Your task to perform on an android device: install app "Google Play Games" Image 0: 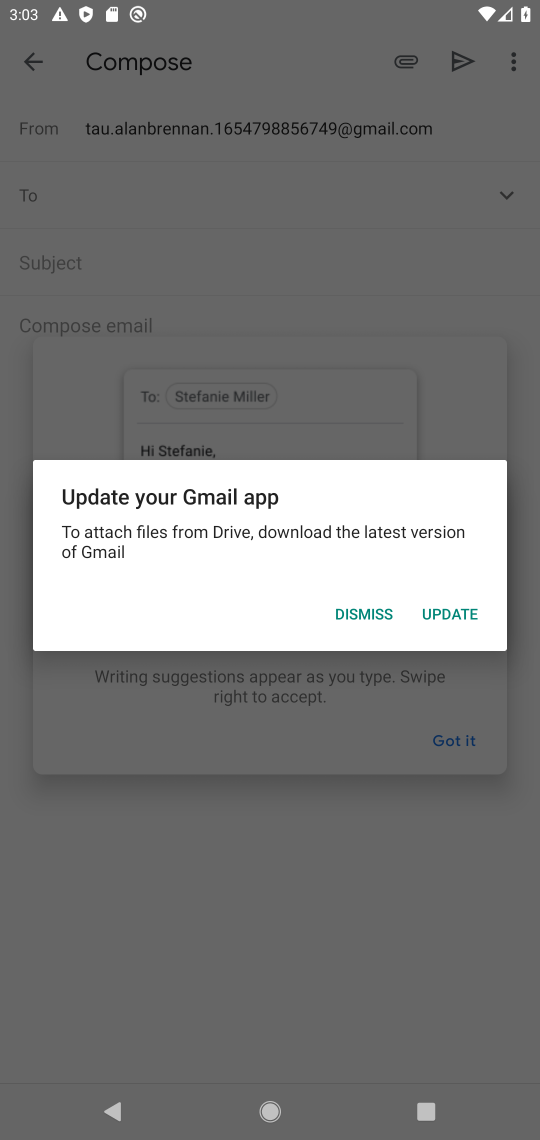
Step 0: click (354, 620)
Your task to perform on an android device: install app "Google Play Games" Image 1: 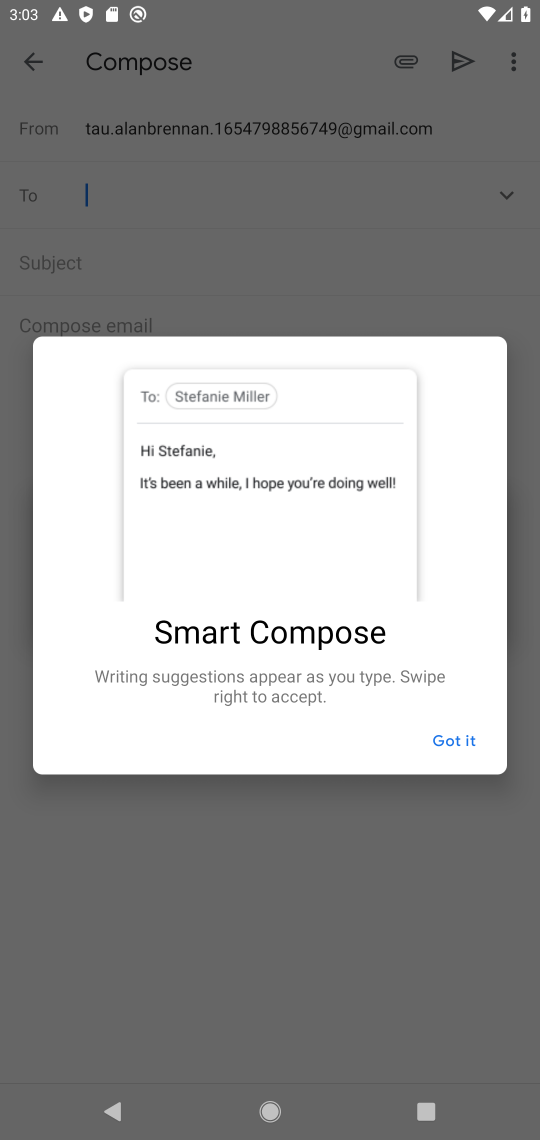
Step 1: click (450, 731)
Your task to perform on an android device: install app "Google Play Games" Image 2: 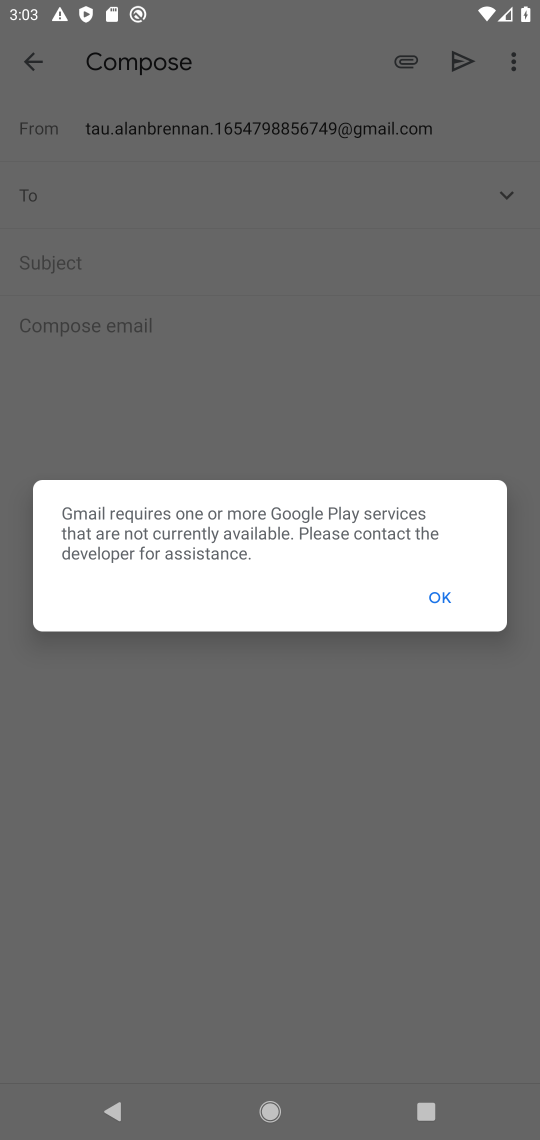
Step 2: click (430, 603)
Your task to perform on an android device: install app "Google Play Games" Image 3: 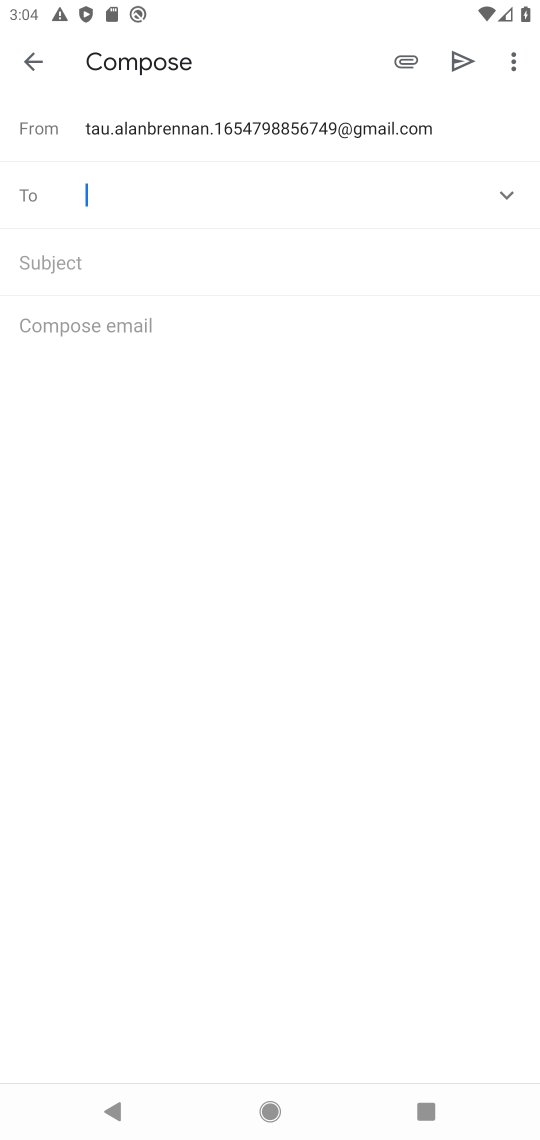
Step 3: click (18, 57)
Your task to perform on an android device: install app "Google Play Games" Image 4: 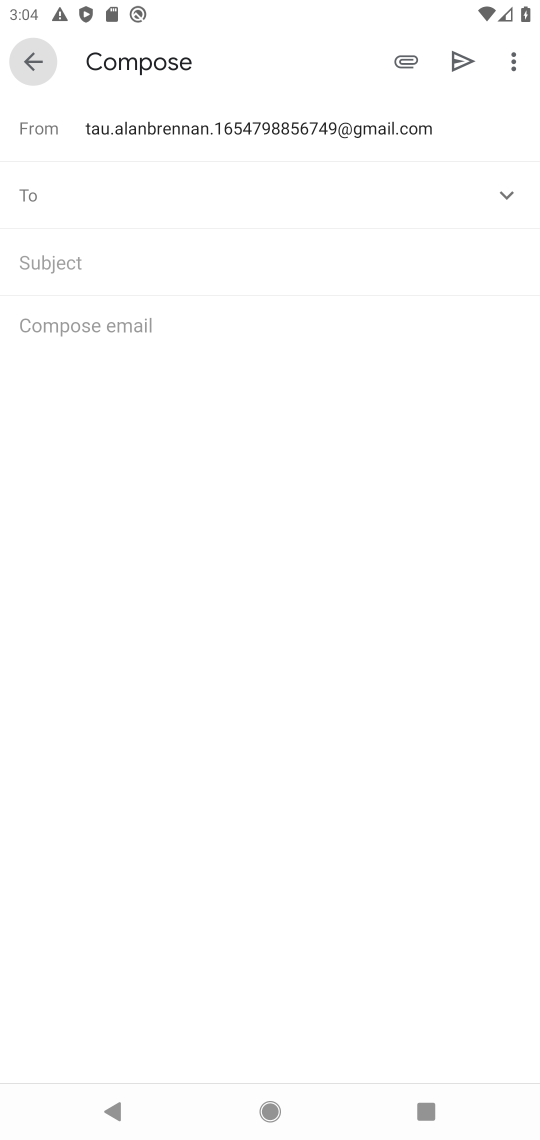
Step 4: click (39, 61)
Your task to perform on an android device: install app "Google Play Games" Image 5: 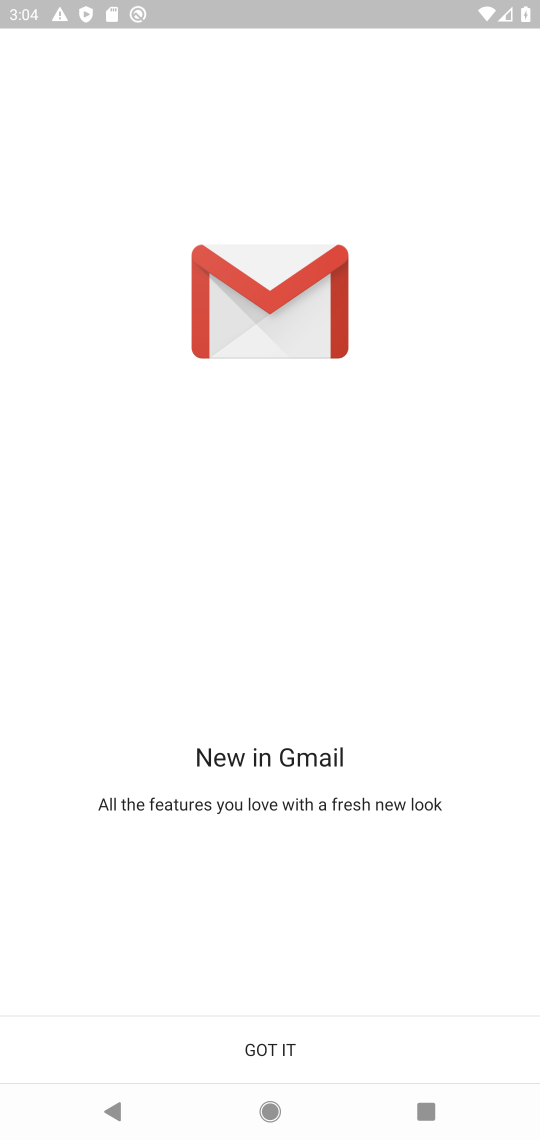
Step 5: click (276, 1039)
Your task to perform on an android device: install app "Google Play Games" Image 6: 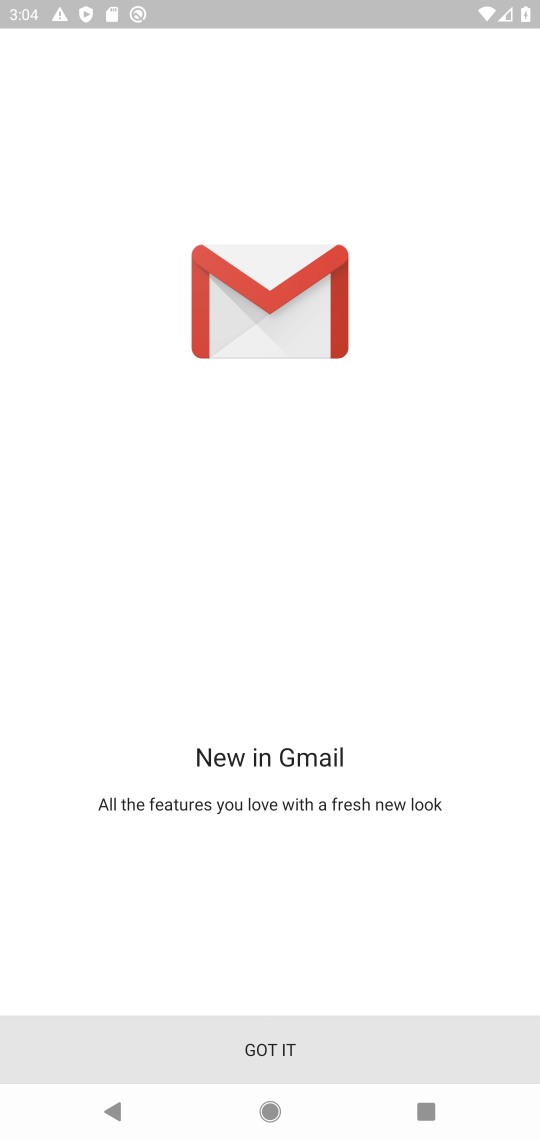
Step 6: click (269, 1036)
Your task to perform on an android device: install app "Google Play Games" Image 7: 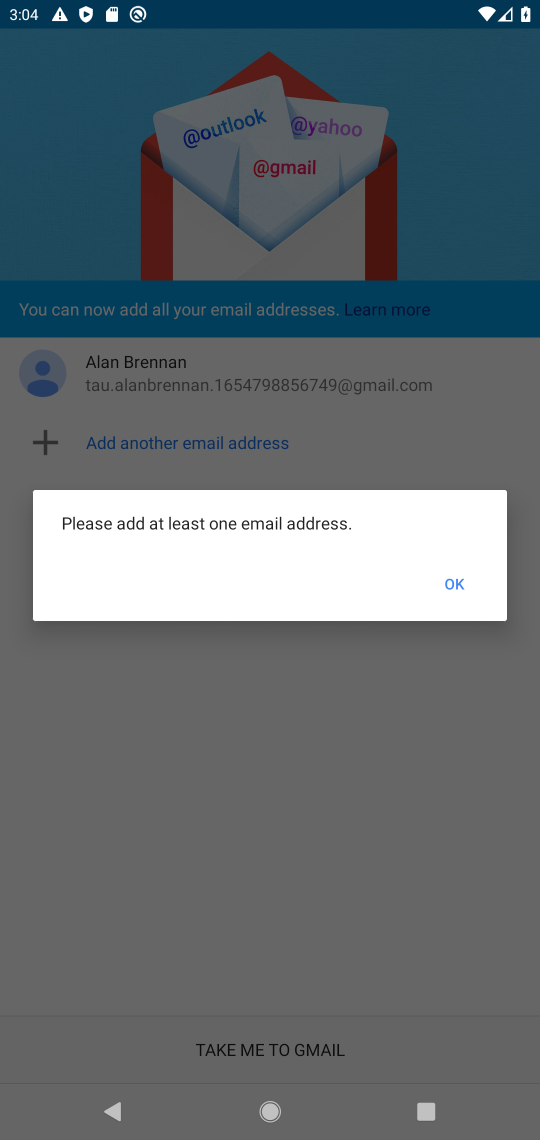
Step 7: click (452, 586)
Your task to perform on an android device: install app "Google Play Games" Image 8: 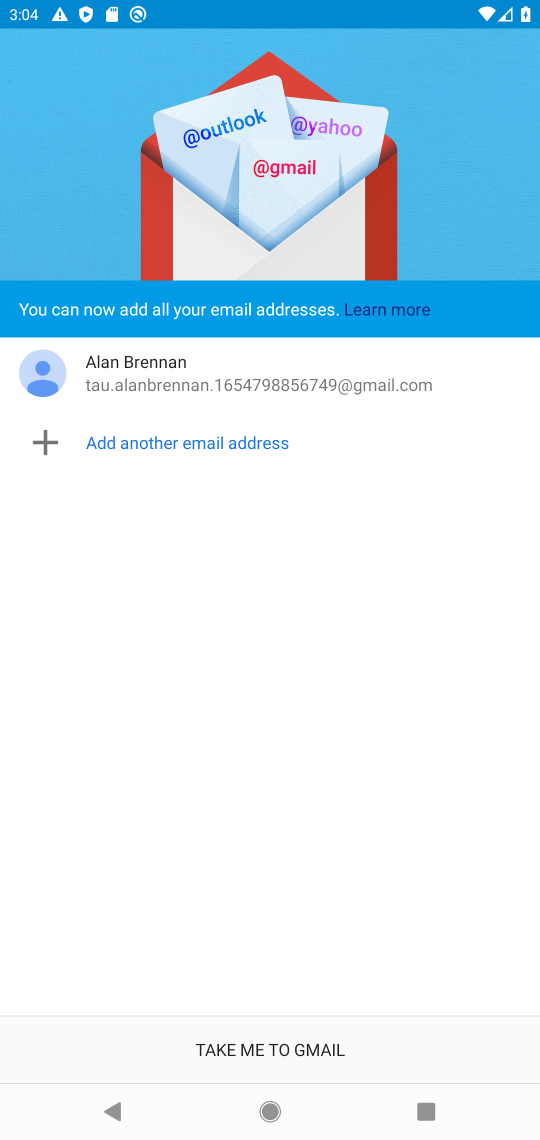
Step 8: click (238, 1052)
Your task to perform on an android device: install app "Google Play Games" Image 9: 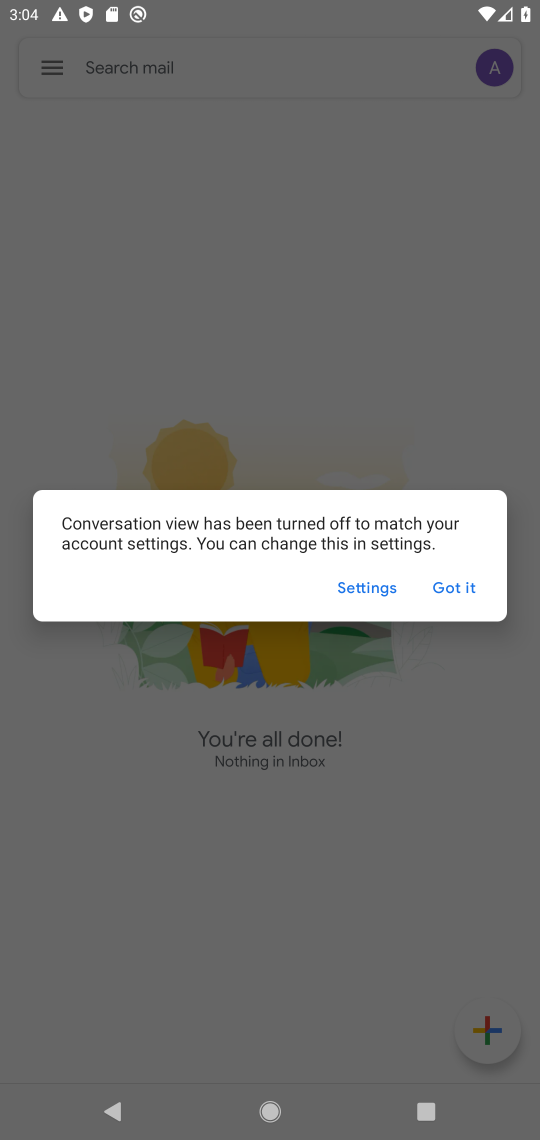
Step 9: click (449, 580)
Your task to perform on an android device: install app "Google Play Games" Image 10: 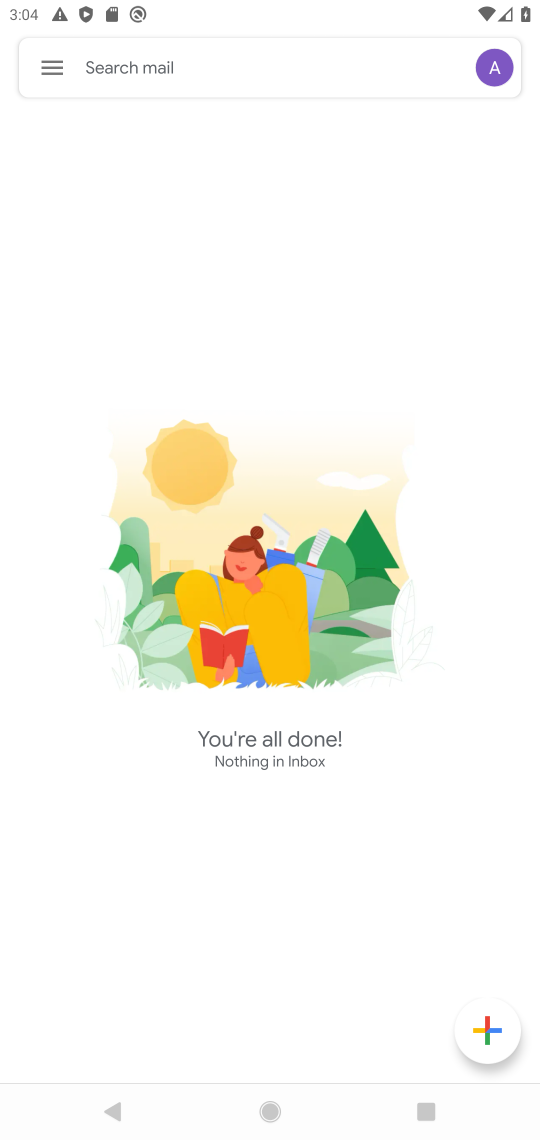
Step 10: click (453, 578)
Your task to perform on an android device: install app "Google Play Games" Image 11: 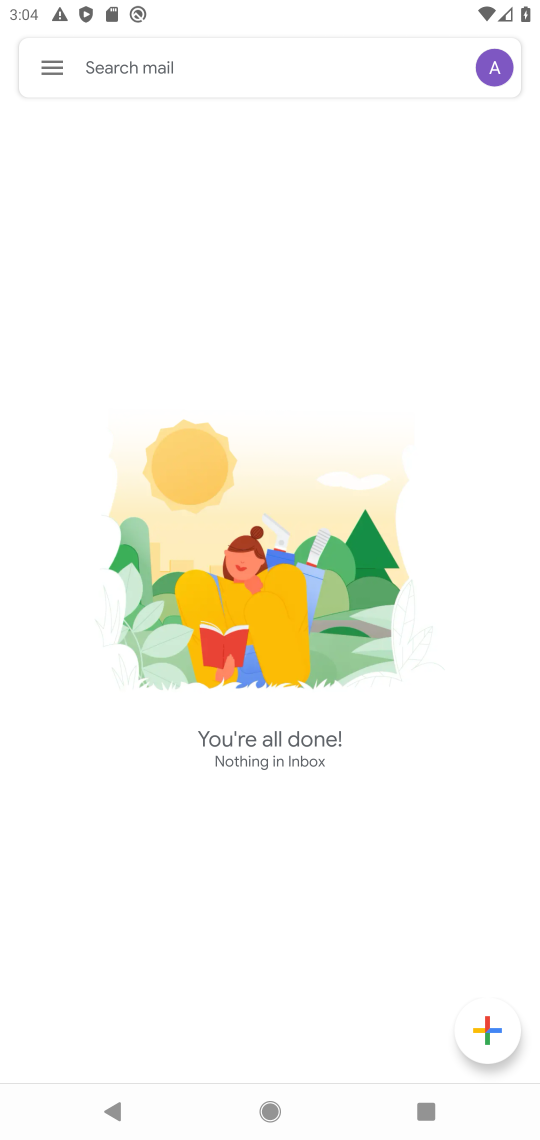
Step 11: press back button
Your task to perform on an android device: install app "Google Play Games" Image 12: 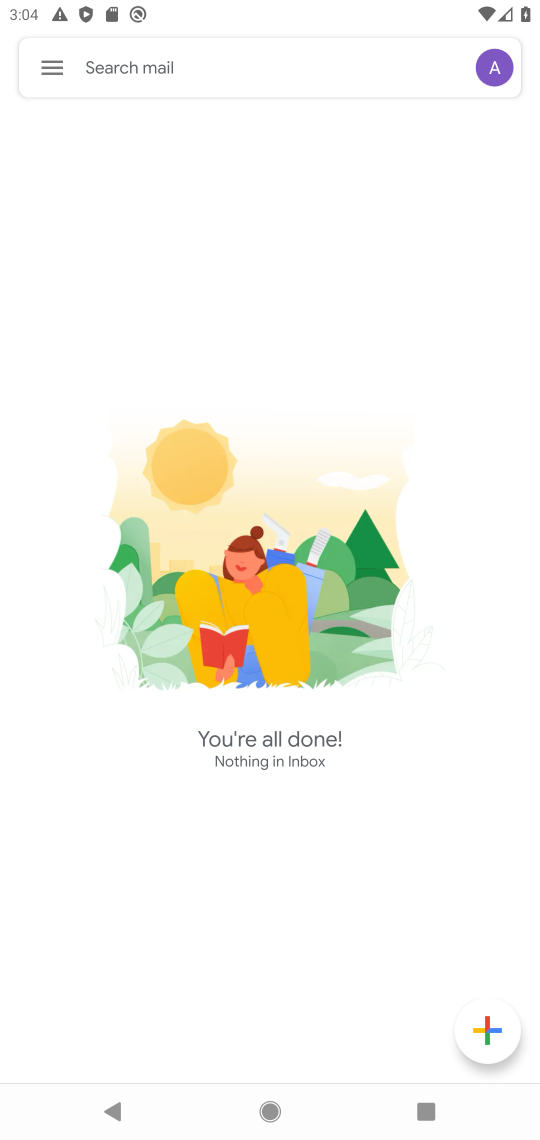
Step 12: press back button
Your task to perform on an android device: install app "Google Play Games" Image 13: 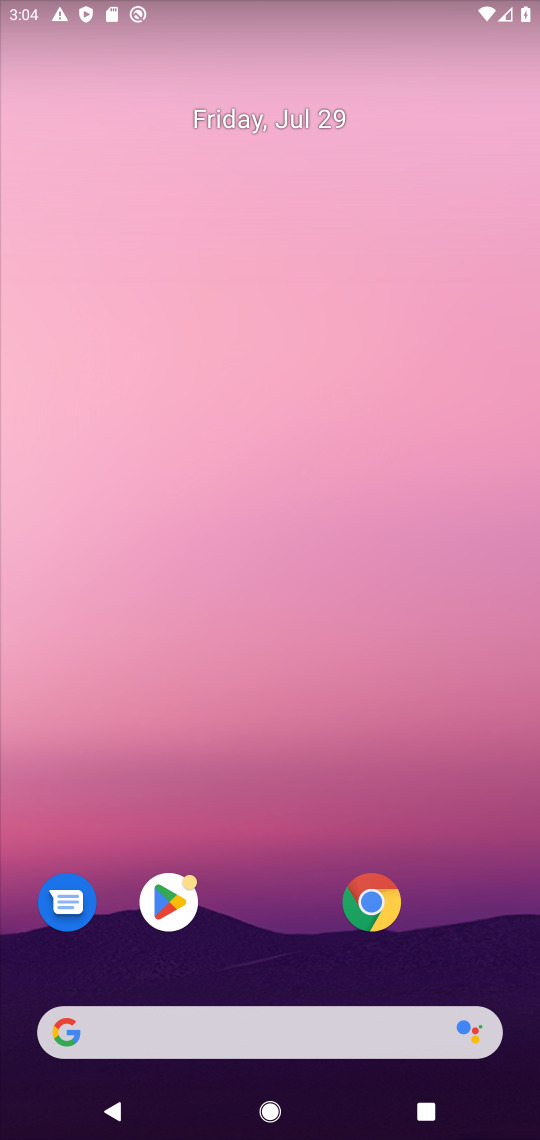
Step 13: press back button
Your task to perform on an android device: install app "Google Play Games" Image 14: 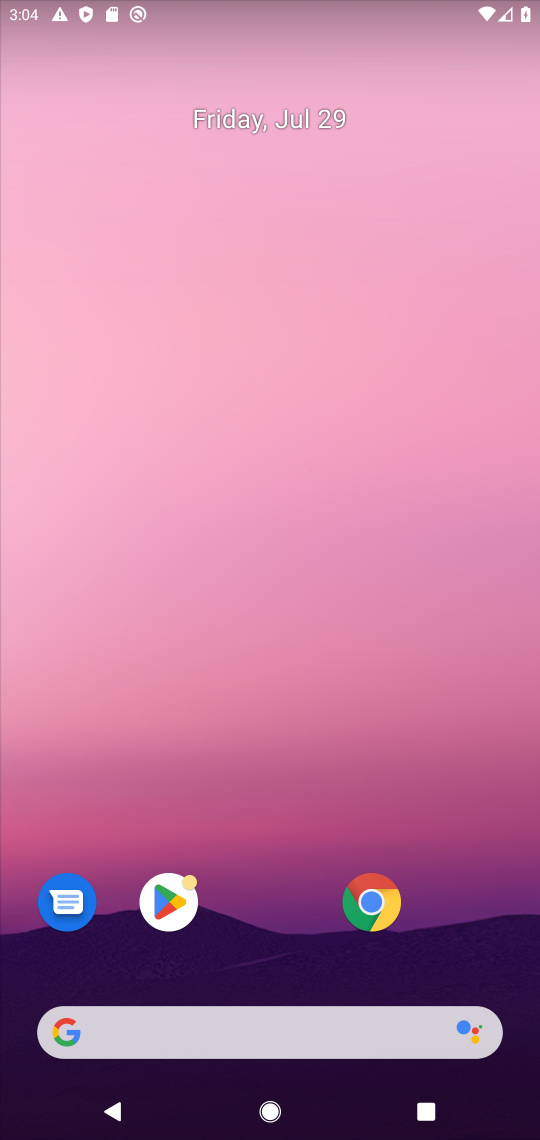
Step 14: drag from (343, 966) to (270, 557)
Your task to perform on an android device: install app "Google Play Games" Image 15: 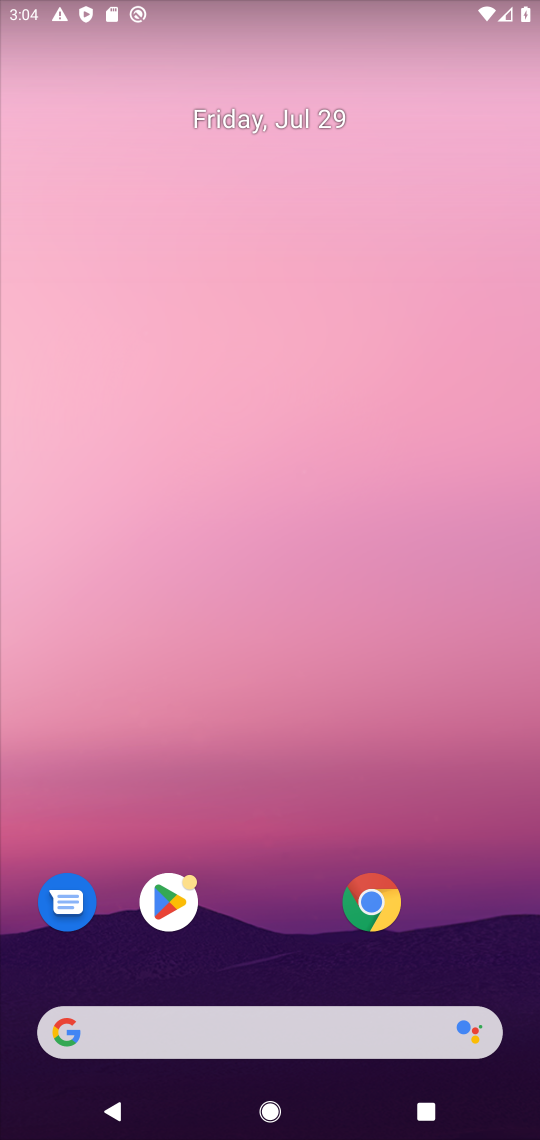
Step 15: drag from (336, 1113) to (275, 603)
Your task to perform on an android device: install app "Google Play Games" Image 16: 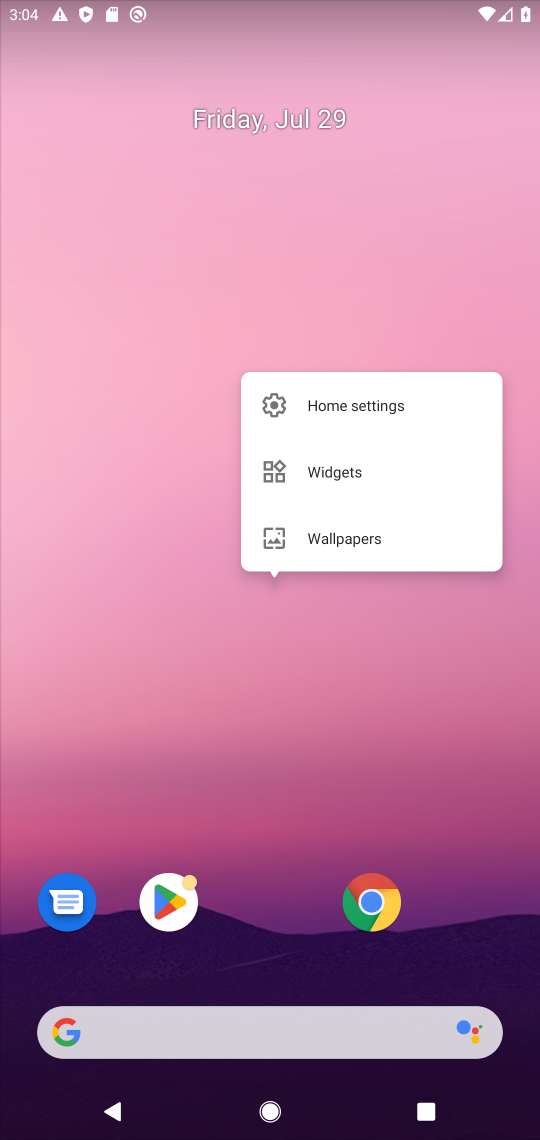
Step 16: drag from (250, 772) to (130, 102)
Your task to perform on an android device: install app "Google Play Games" Image 17: 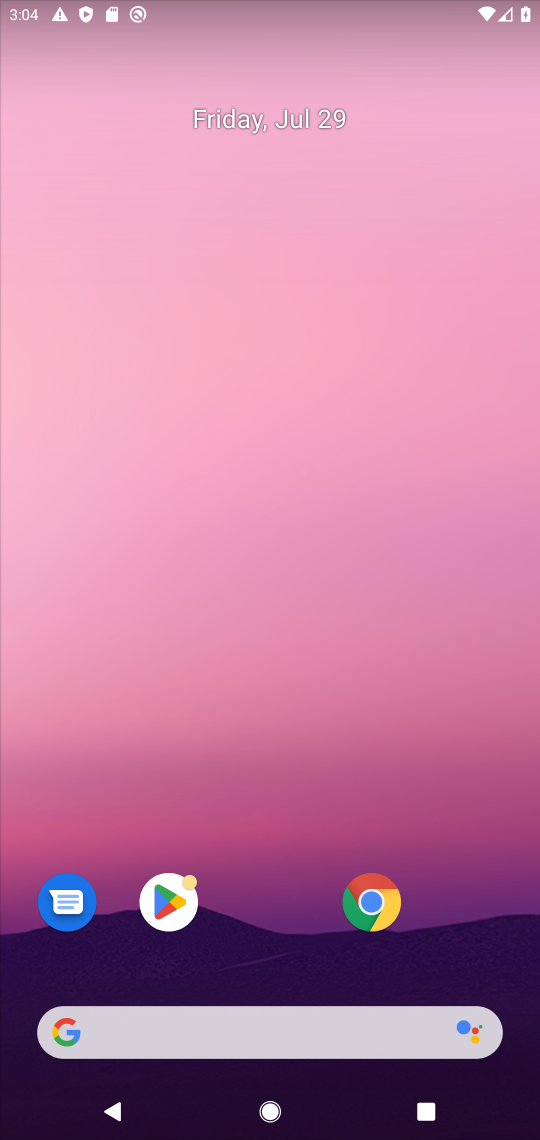
Step 17: drag from (202, 363) to (152, 15)
Your task to perform on an android device: install app "Google Play Games" Image 18: 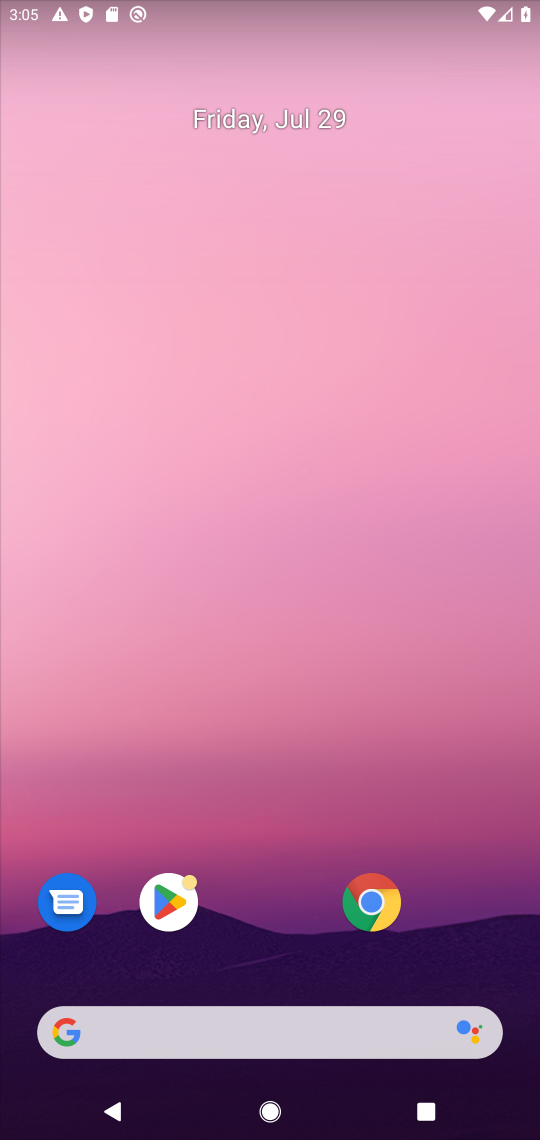
Step 18: drag from (273, 407) to (216, 171)
Your task to perform on an android device: install app "Google Play Games" Image 19: 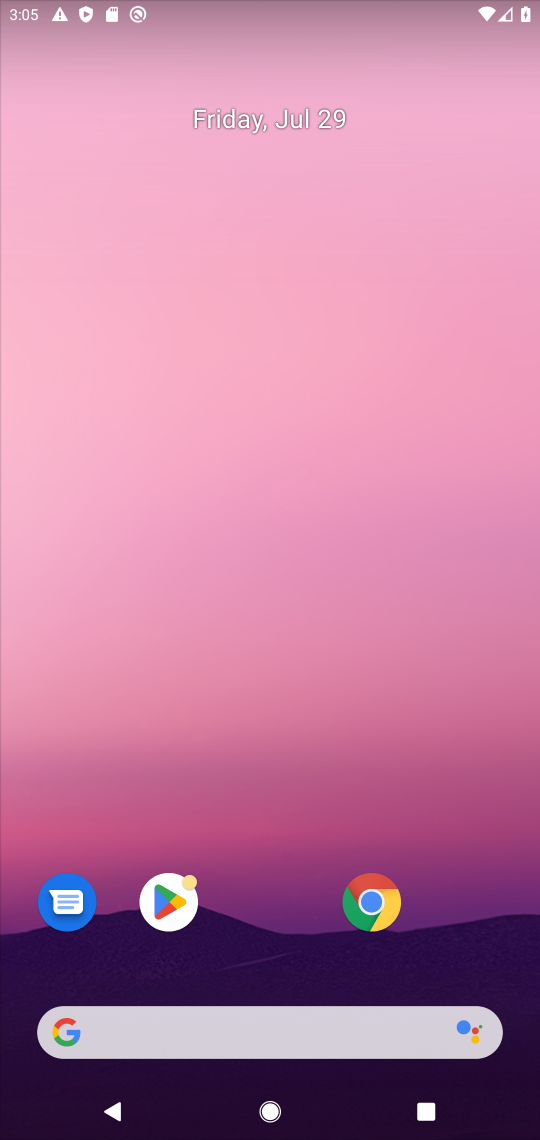
Step 19: drag from (185, 335) to (155, 210)
Your task to perform on an android device: install app "Google Play Games" Image 20: 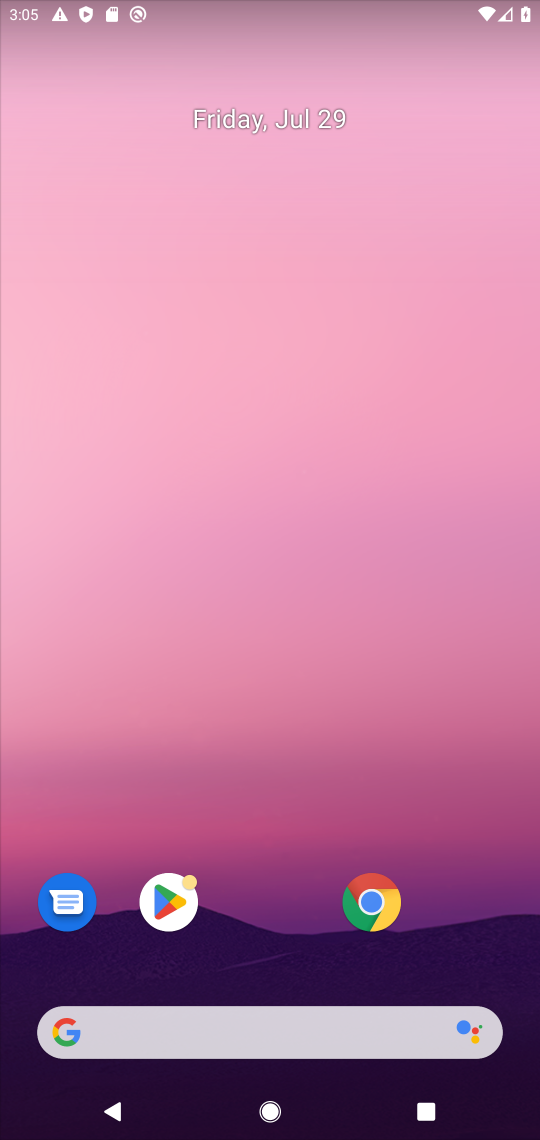
Step 20: drag from (272, 611) to (212, 206)
Your task to perform on an android device: install app "Google Play Games" Image 21: 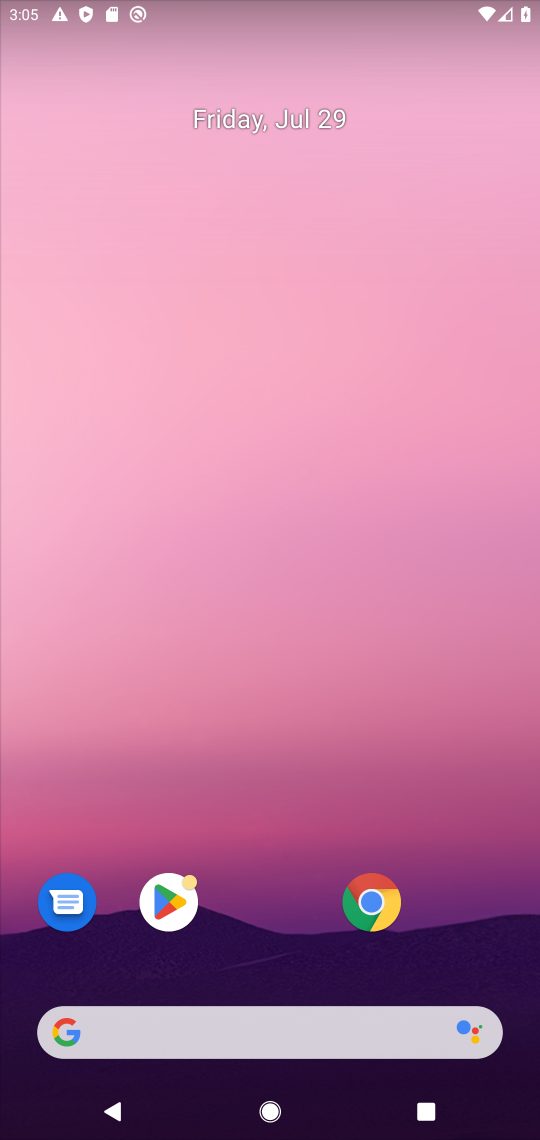
Step 21: drag from (215, 506) to (206, 445)
Your task to perform on an android device: install app "Google Play Games" Image 22: 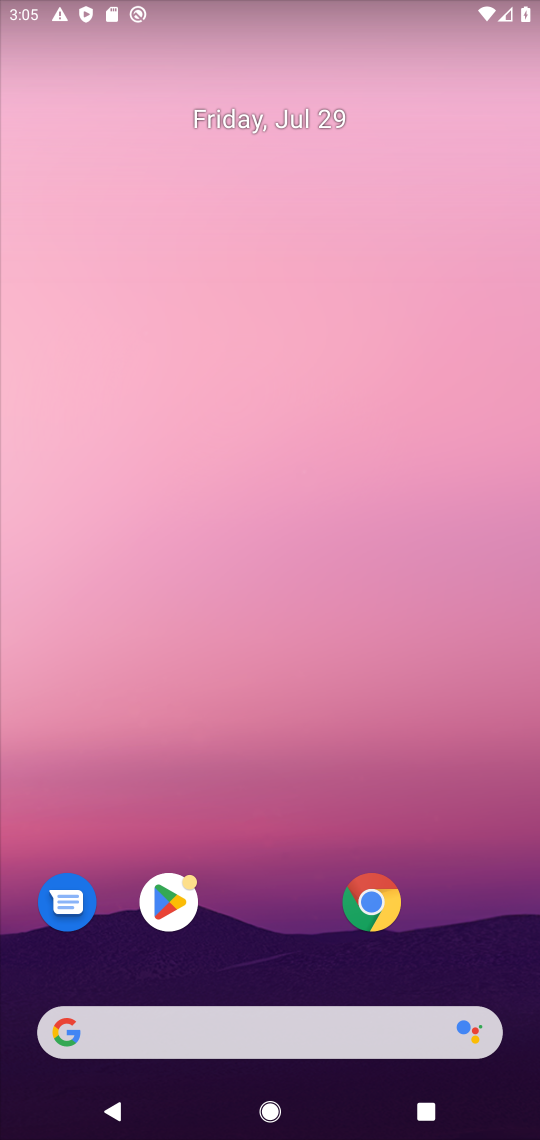
Step 22: drag from (304, 186) to (295, 91)
Your task to perform on an android device: install app "Google Play Games" Image 23: 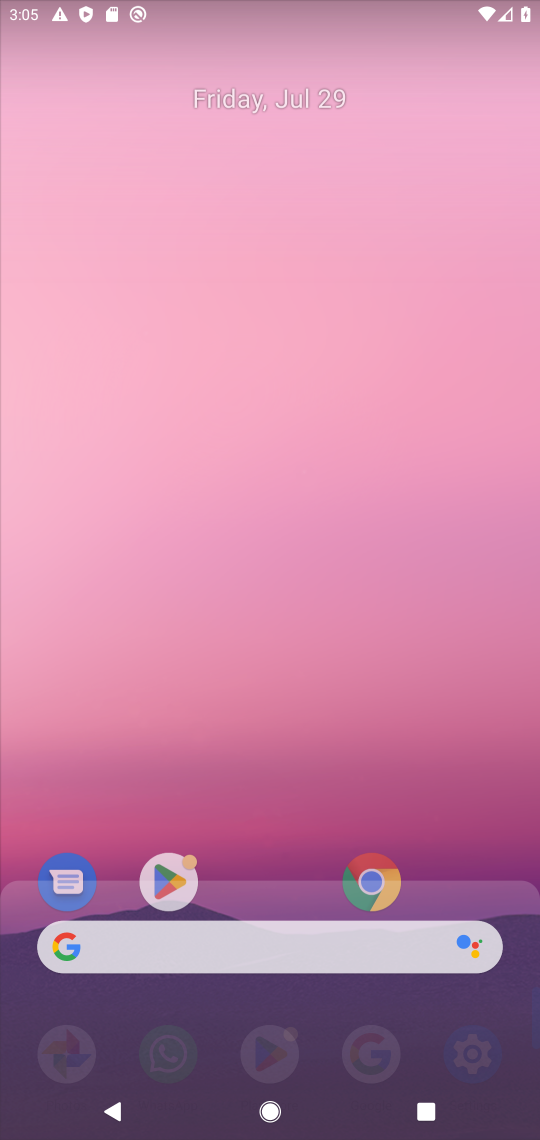
Step 23: drag from (242, 14) to (163, 26)
Your task to perform on an android device: install app "Google Play Games" Image 24: 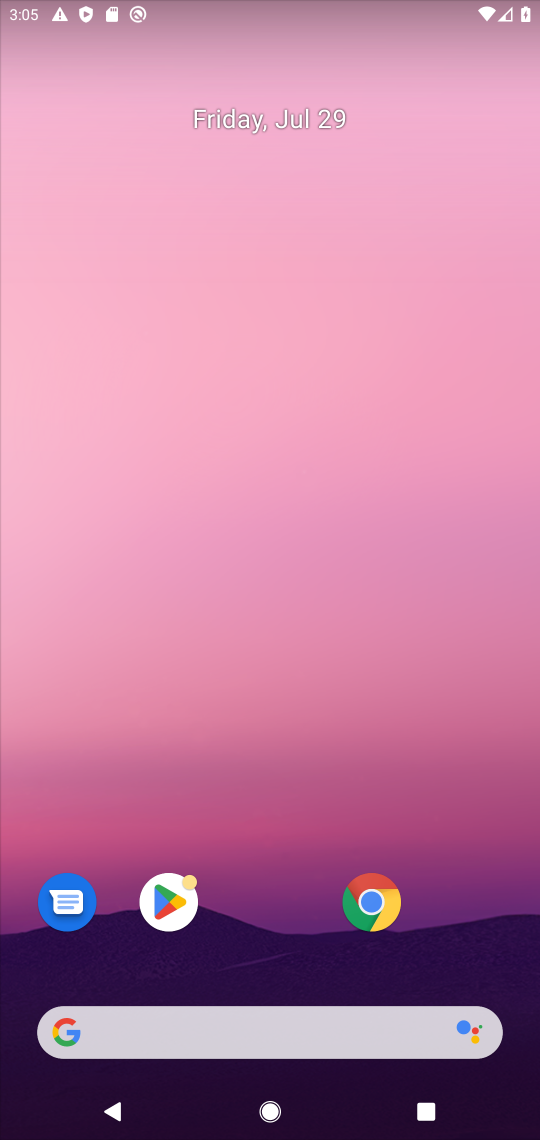
Step 24: drag from (259, 688) to (107, 189)
Your task to perform on an android device: install app "Google Play Games" Image 25: 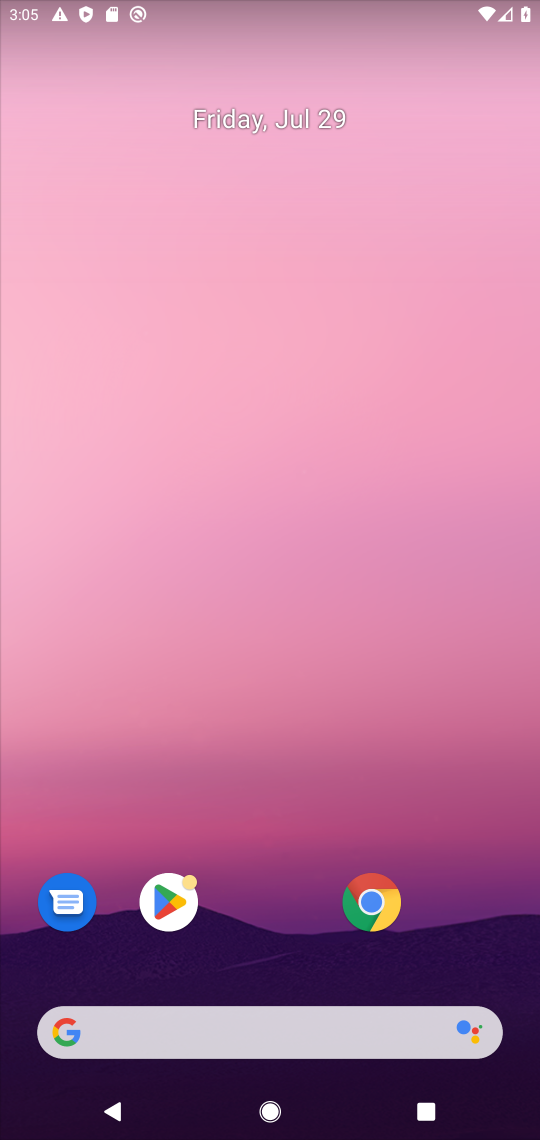
Step 25: drag from (332, 913) to (237, 260)
Your task to perform on an android device: install app "Google Play Games" Image 26: 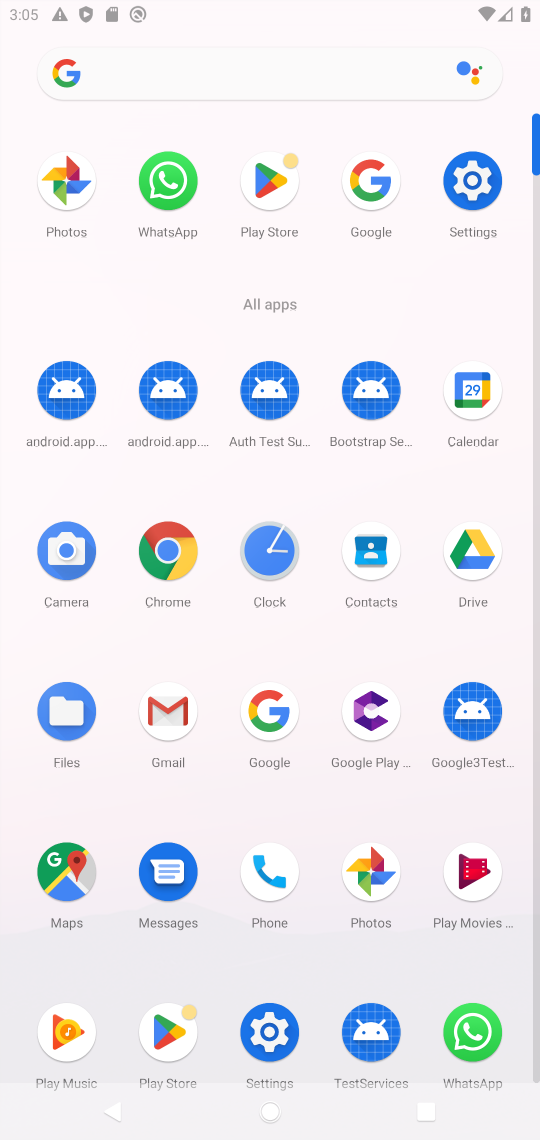
Step 26: drag from (192, 266) to (254, 38)
Your task to perform on an android device: install app "Google Play Games" Image 27: 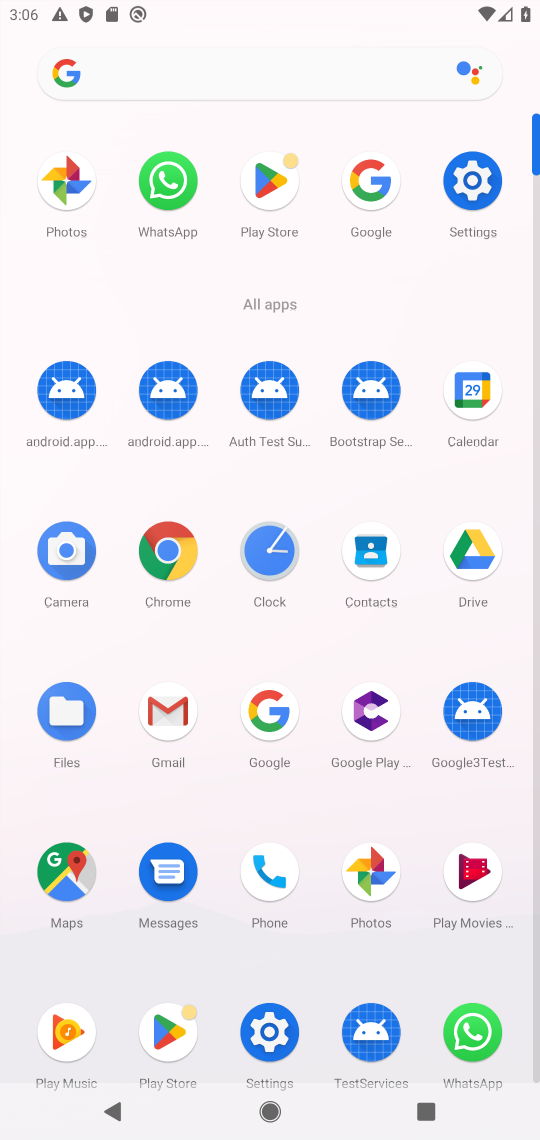
Step 27: click (268, 189)
Your task to perform on an android device: install app "Google Play Games" Image 28: 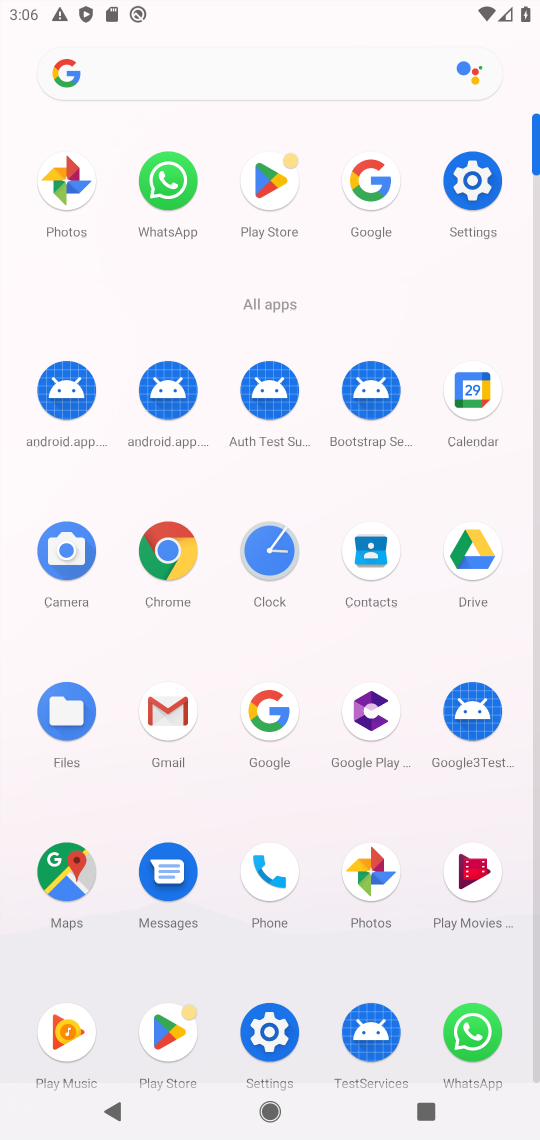
Step 28: click (268, 188)
Your task to perform on an android device: install app "Google Play Games" Image 29: 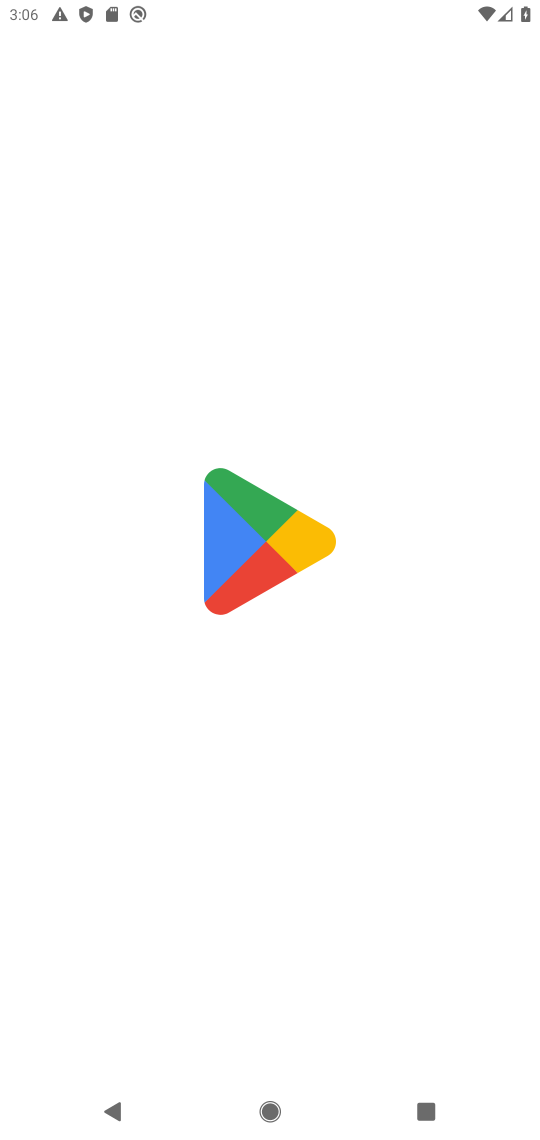
Step 29: click (270, 193)
Your task to perform on an android device: install app "Google Play Games" Image 30: 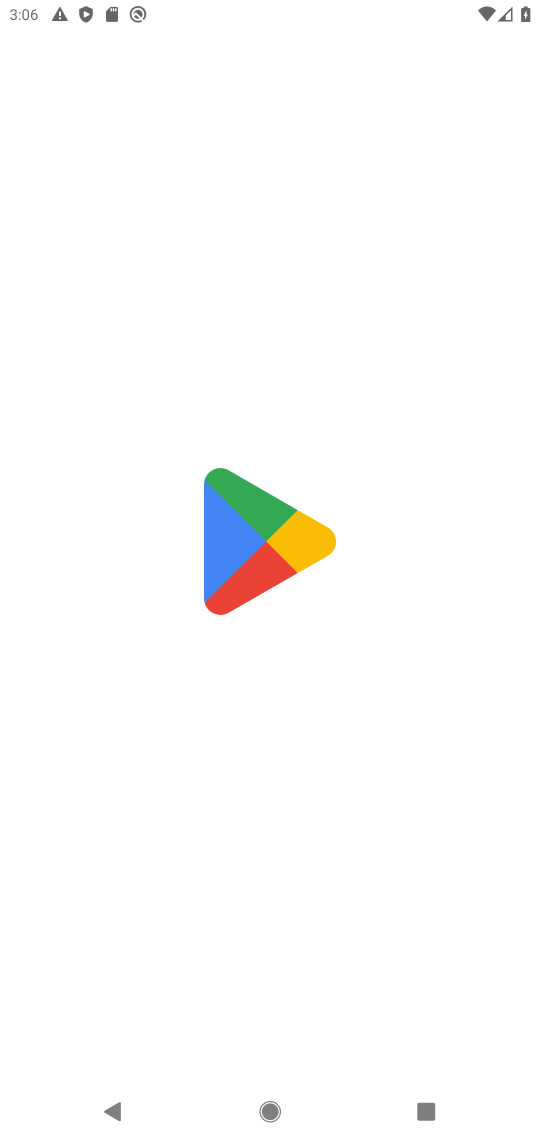
Step 30: click (263, 186)
Your task to perform on an android device: install app "Google Play Games" Image 31: 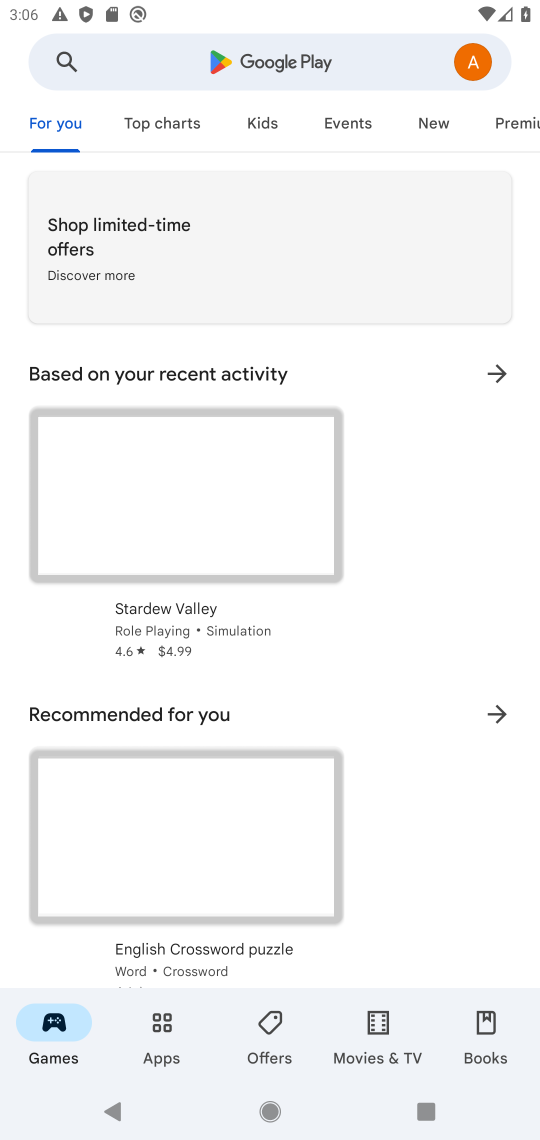
Step 31: click (260, 55)
Your task to perform on an android device: install app "Google Play Games" Image 32: 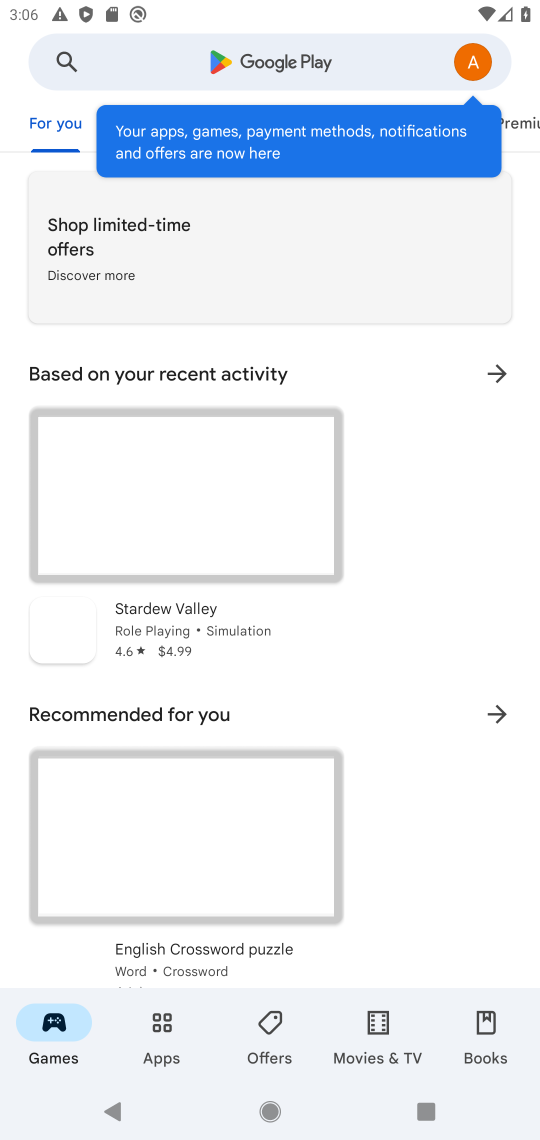
Step 32: click (256, 49)
Your task to perform on an android device: install app "Google Play Games" Image 33: 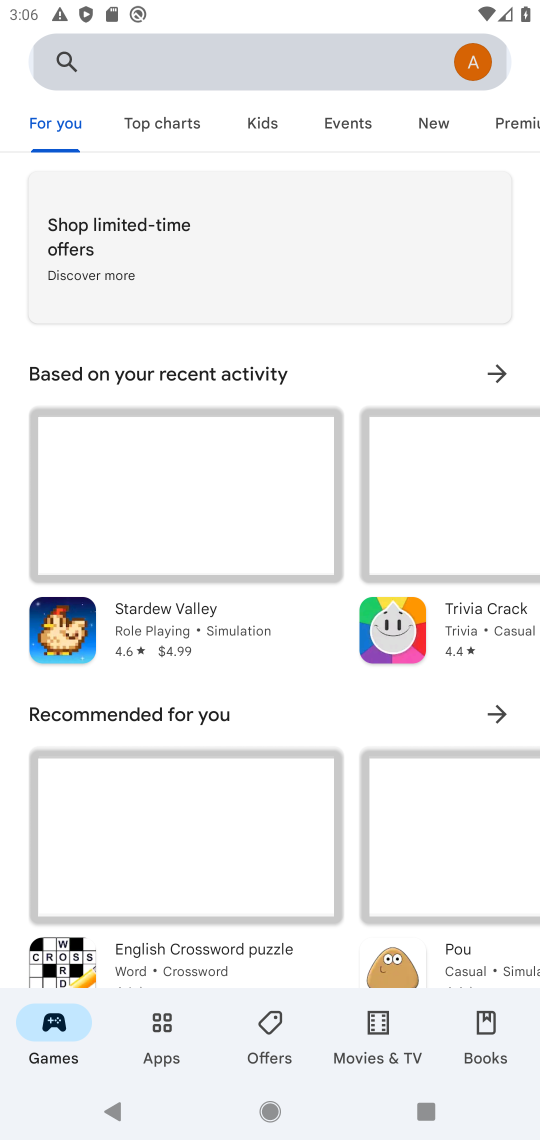
Step 33: click (252, 73)
Your task to perform on an android device: install app "Google Play Games" Image 34: 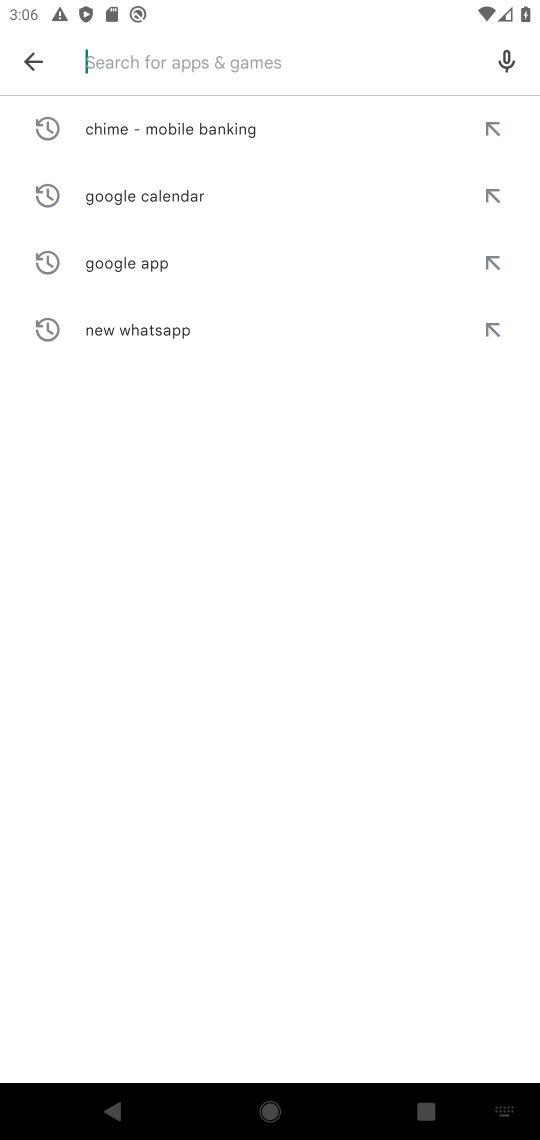
Step 34: click (228, 54)
Your task to perform on an android device: install app "Google Play Games" Image 35: 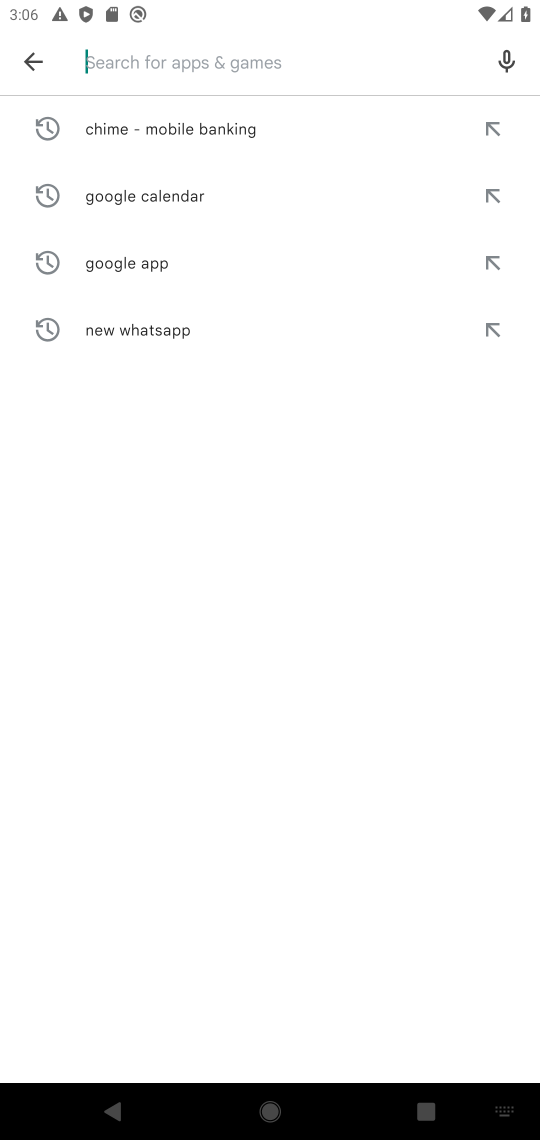
Step 35: click (209, 61)
Your task to perform on an android device: install app "Google Play Games" Image 36: 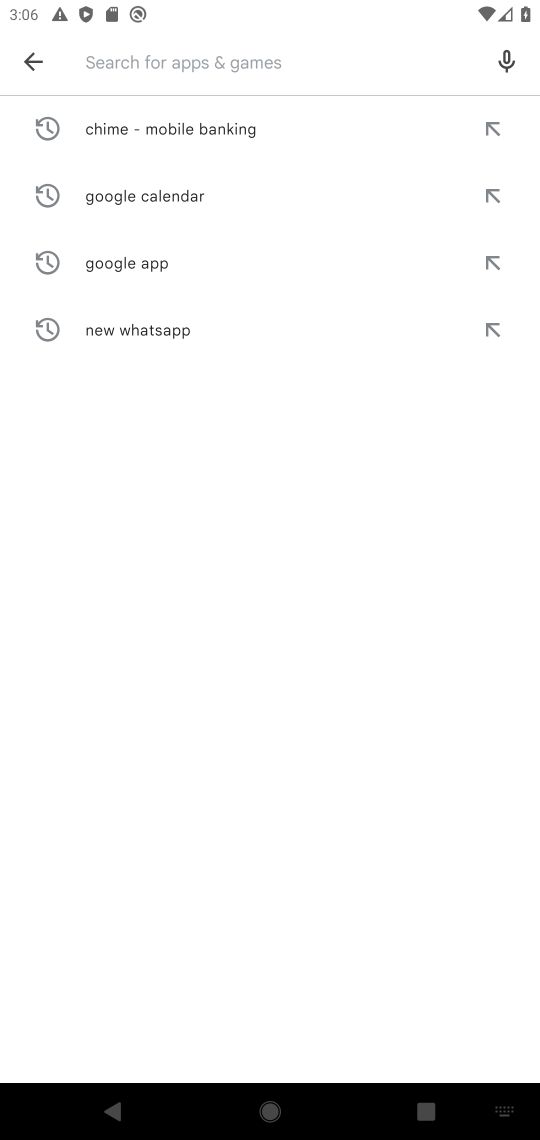
Step 36: click (206, 62)
Your task to perform on an android device: install app "Google Play Games" Image 37: 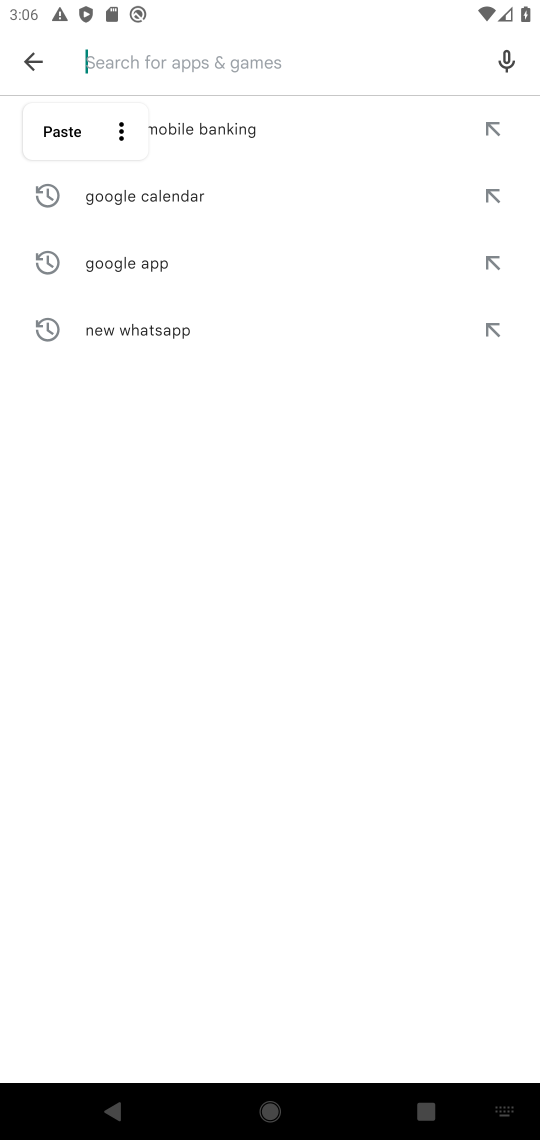
Step 37: type "Google Play Games"
Your task to perform on an android device: install app "Google Play Games" Image 38: 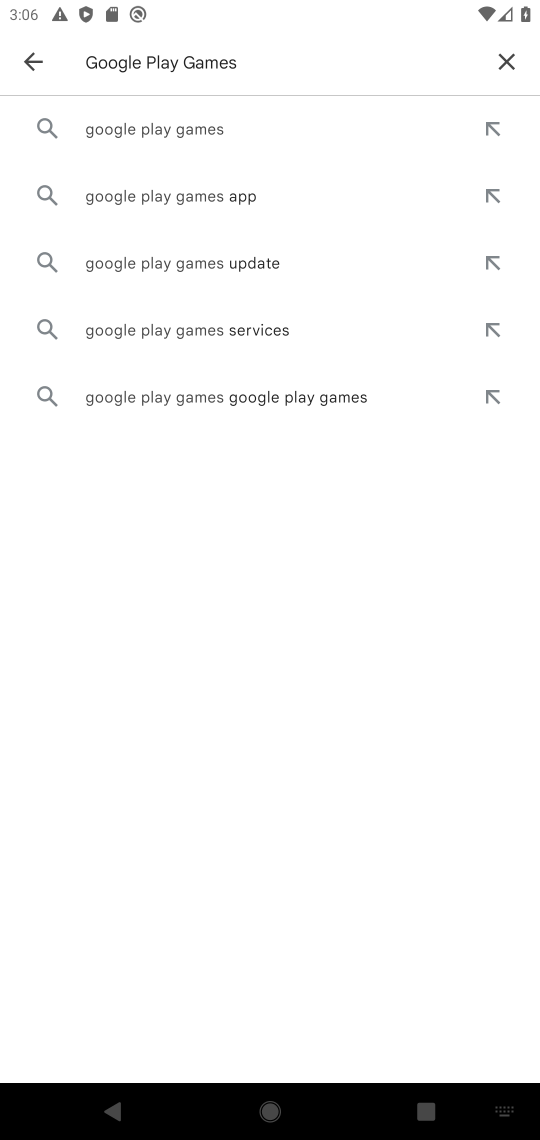
Step 38: click (174, 124)
Your task to perform on an android device: install app "Google Play Games" Image 39: 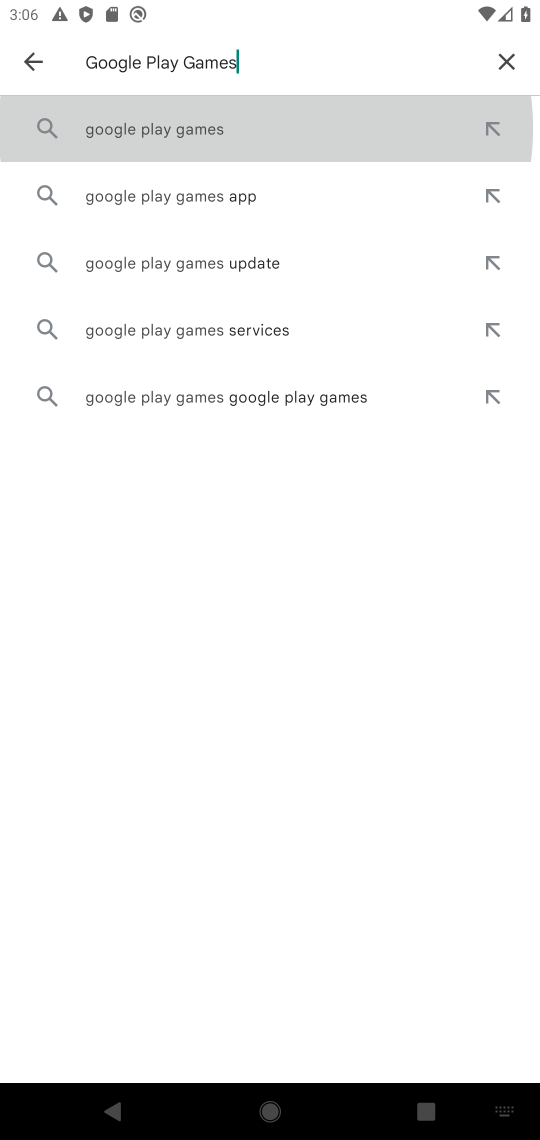
Step 39: click (173, 126)
Your task to perform on an android device: install app "Google Play Games" Image 40: 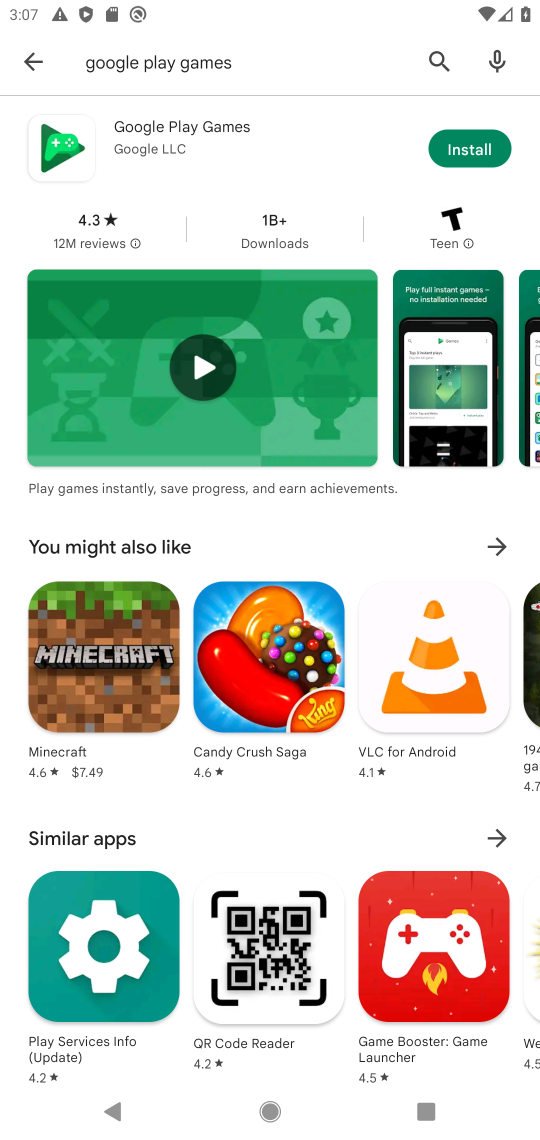
Step 40: click (458, 143)
Your task to perform on an android device: install app "Google Play Games" Image 41: 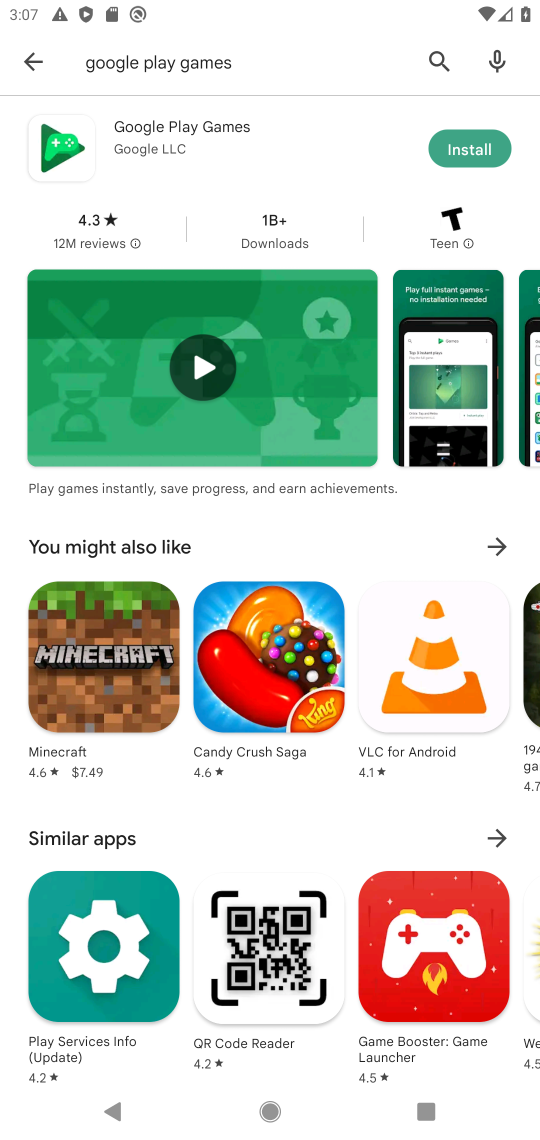
Step 41: click (458, 130)
Your task to perform on an android device: install app "Google Play Games" Image 42: 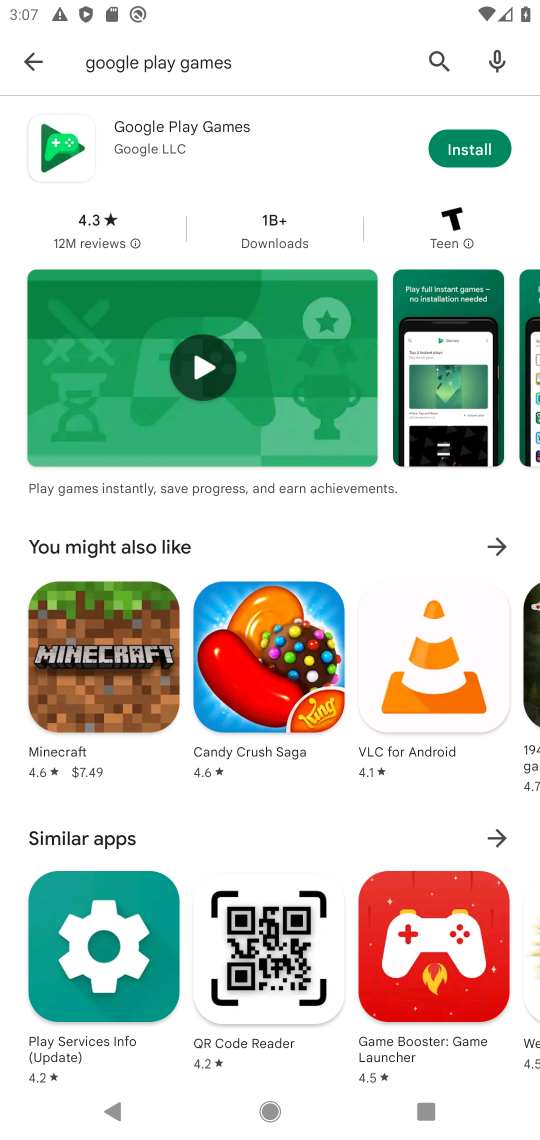
Step 42: click (462, 145)
Your task to perform on an android device: install app "Google Play Games" Image 43: 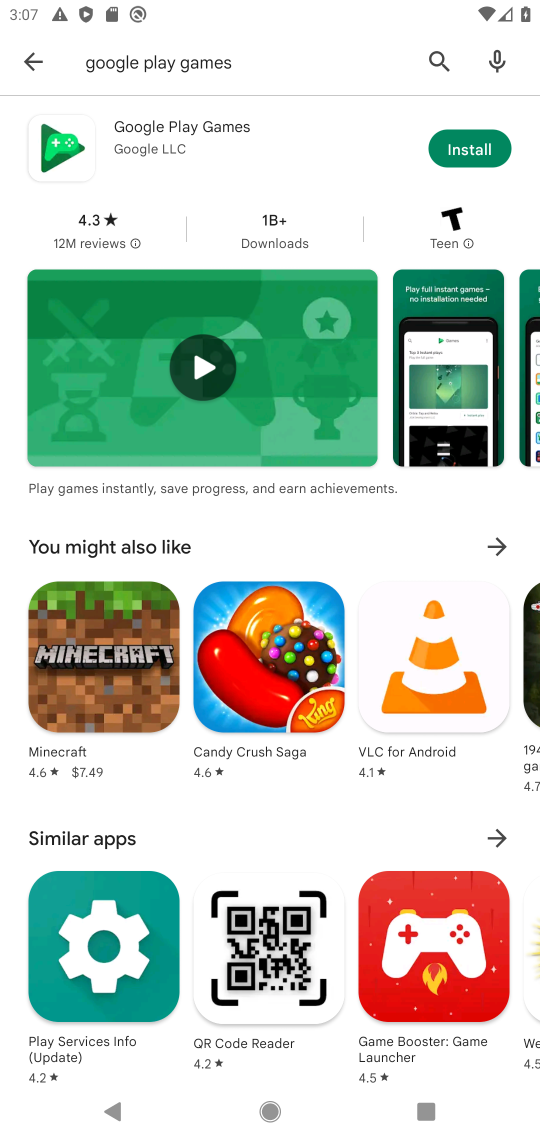
Step 43: click (459, 145)
Your task to perform on an android device: install app "Google Play Games" Image 44: 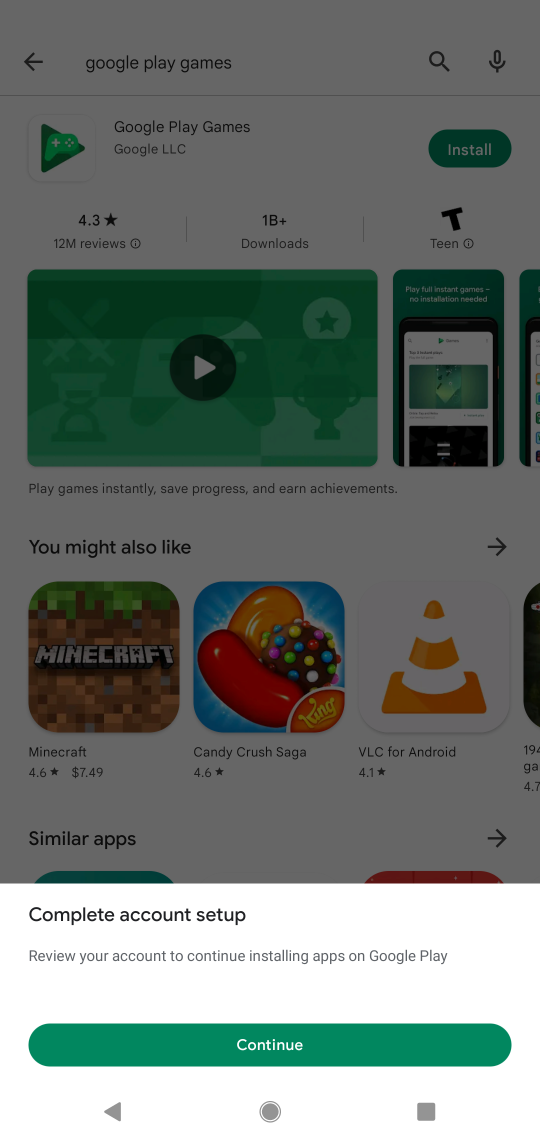
Step 44: click (266, 1032)
Your task to perform on an android device: install app "Google Play Games" Image 45: 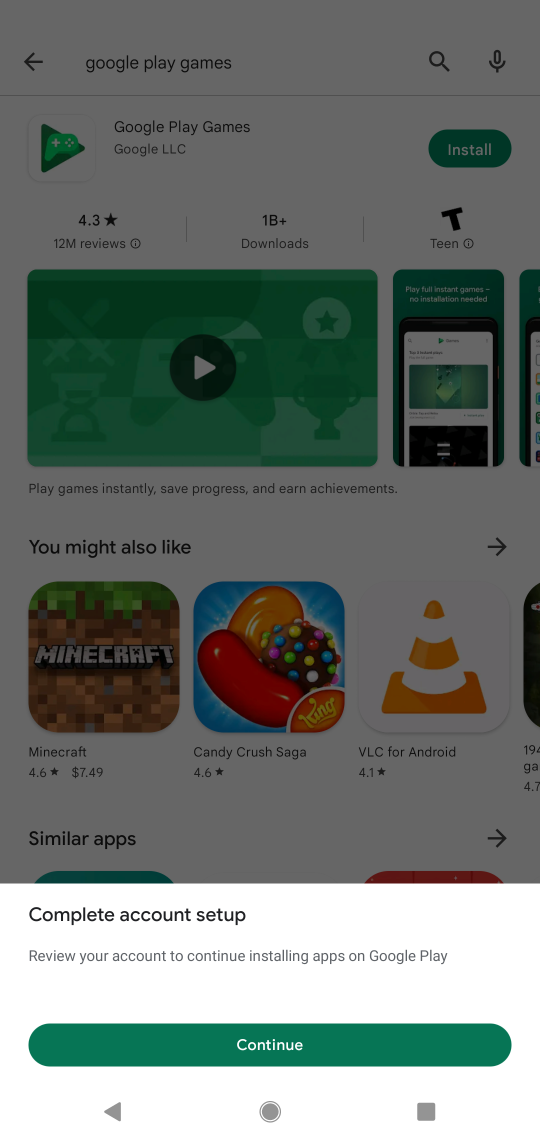
Step 45: click (289, 1021)
Your task to perform on an android device: install app "Google Play Games" Image 46: 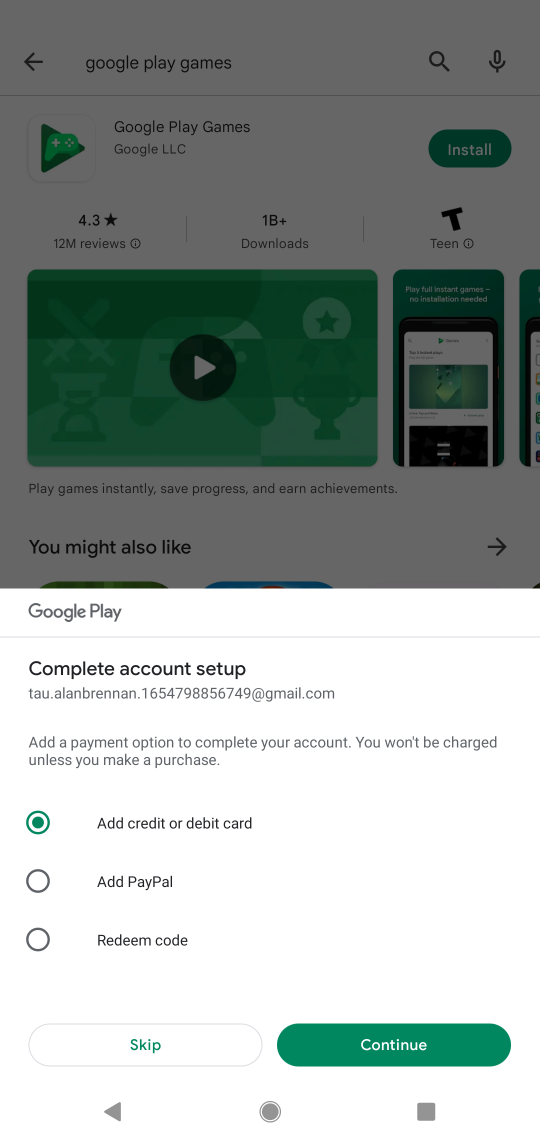
Step 46: click (150, 1045)
Your task to perform on an android device: install app "Google Play Games" Image 47: 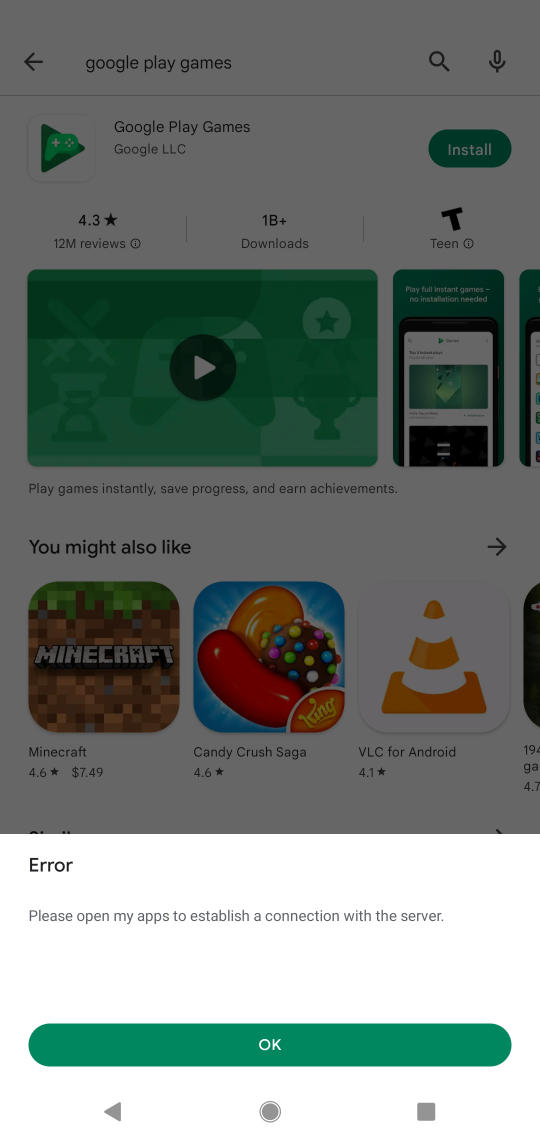
Step 47: click (280, 1045)
Your task to perform on an android device: install app "Google Play Games" Image 48: 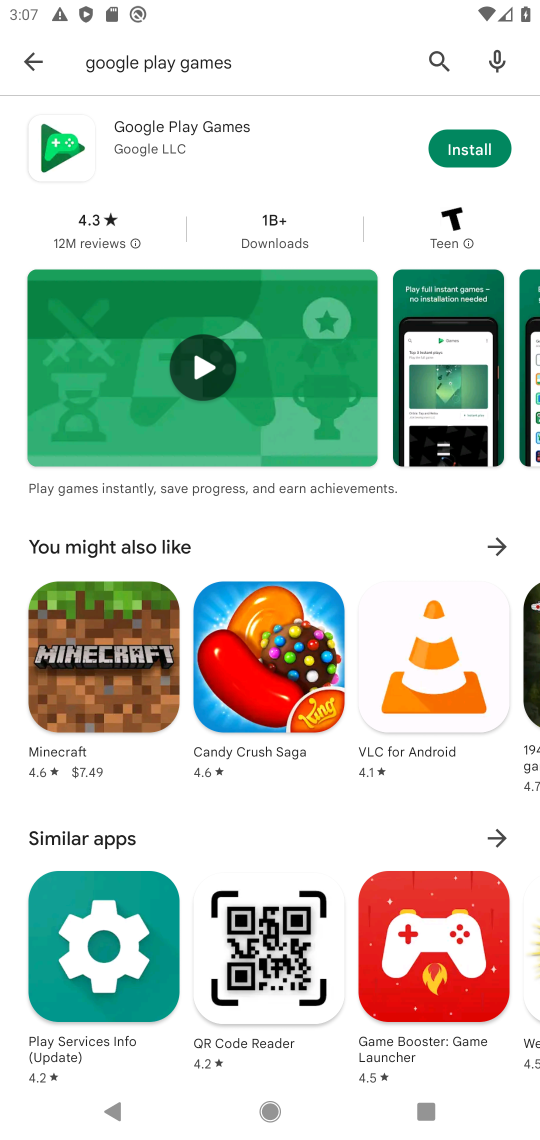
Step 48: click (472, 154)
Your task to perform on an android device: install app "Google Play Games" Image 49: 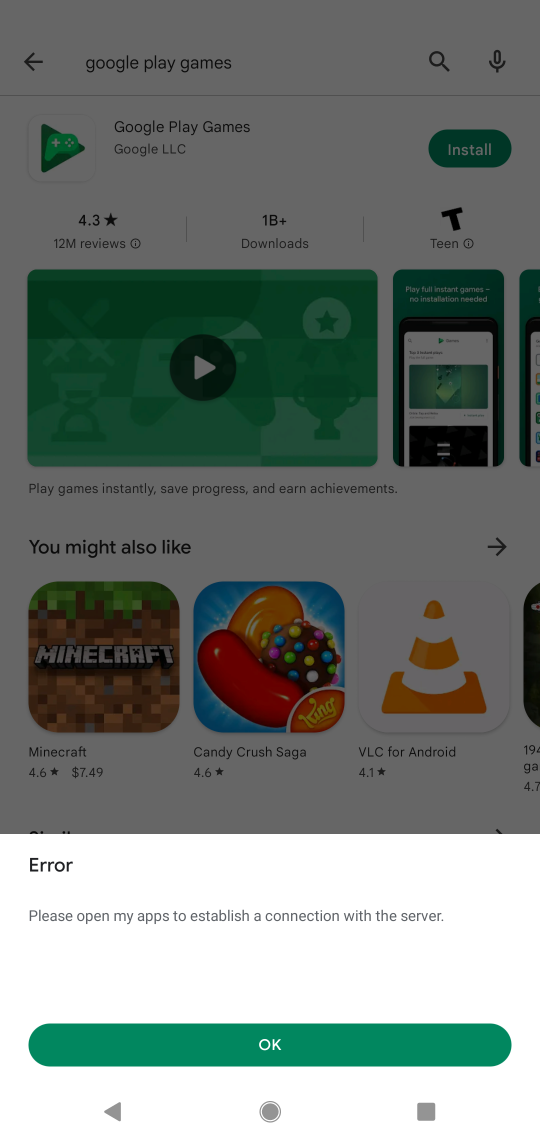
Step 49: click (300, 1037)
Your task to perform on an android device: install app "Google Play Games" Image 50: 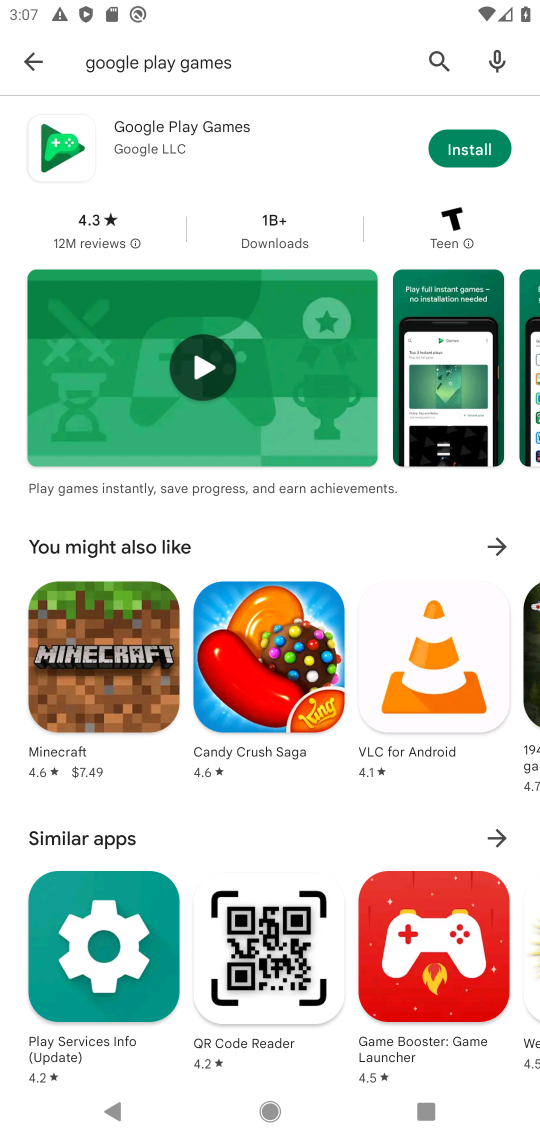
Step 50: click (455, 147)
Your task to perform on an android device: install app "Google Play Games" Image 51: 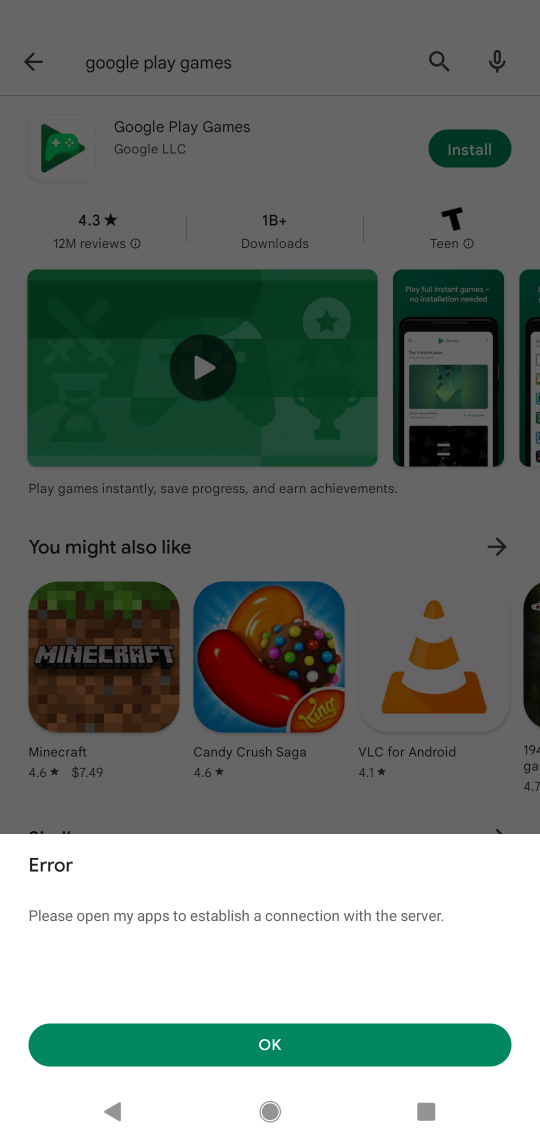
Step 51: click (283, 1047)
Your task to perform on an android device: install app "Google Play Games" Image 52: 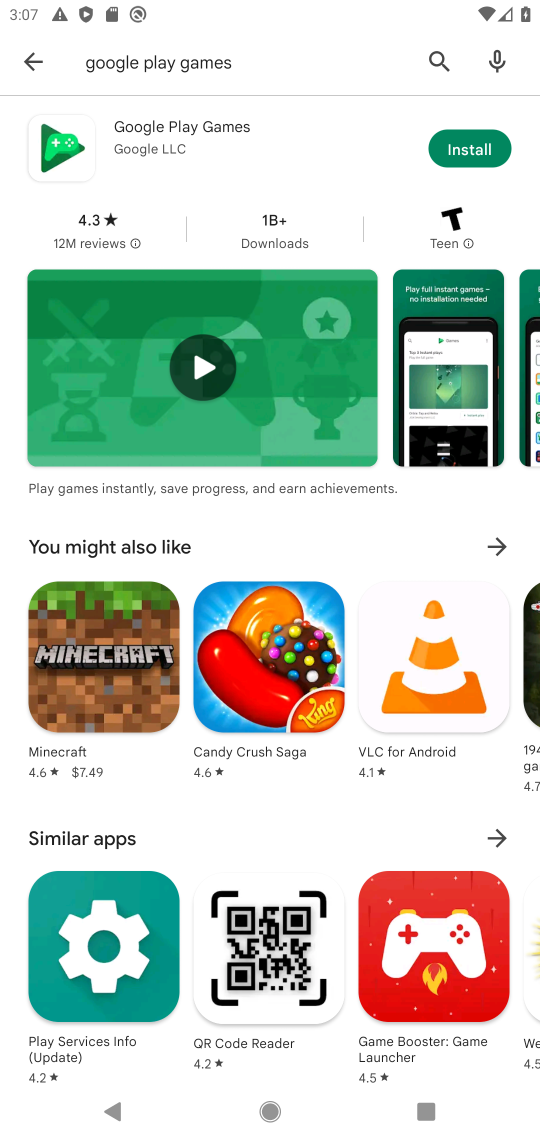
Step 52: click (473, 150)
Your task to perform on an android device: install app "Google Play Games" Image 53: 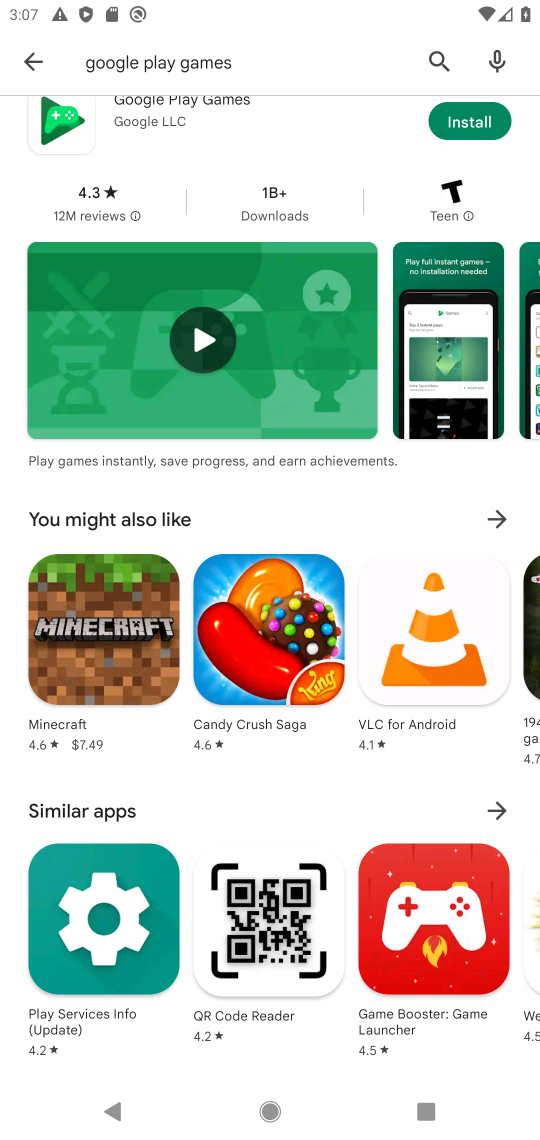
Step 53: click (466, 155)
Your task to perform on an android device: install app "Google Play Games" Image 54: 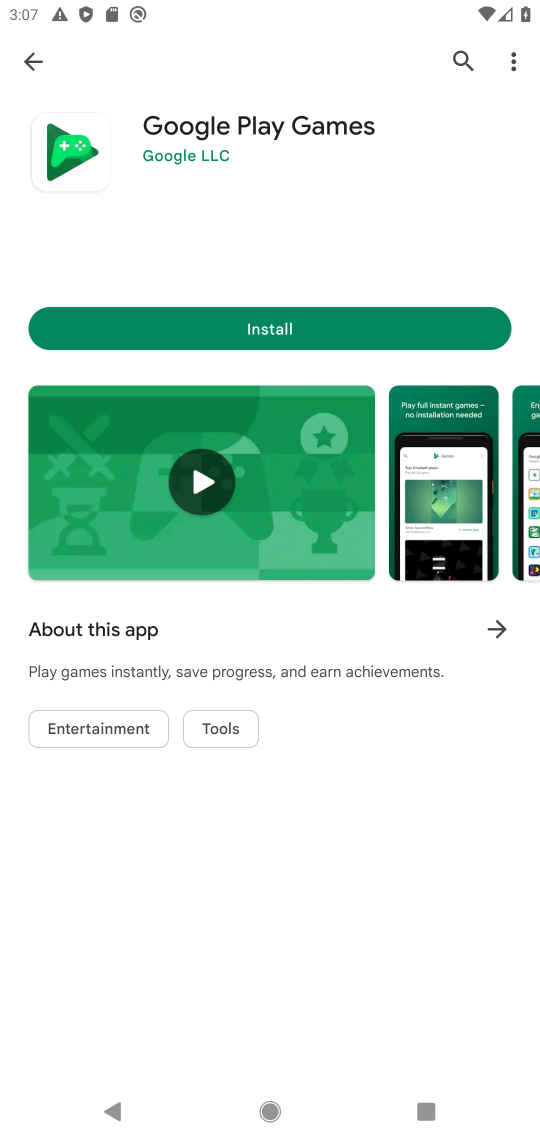
Step 54: click (474, 119)
Your task to perform on an android device: install app "Google Play Games" Image 55: 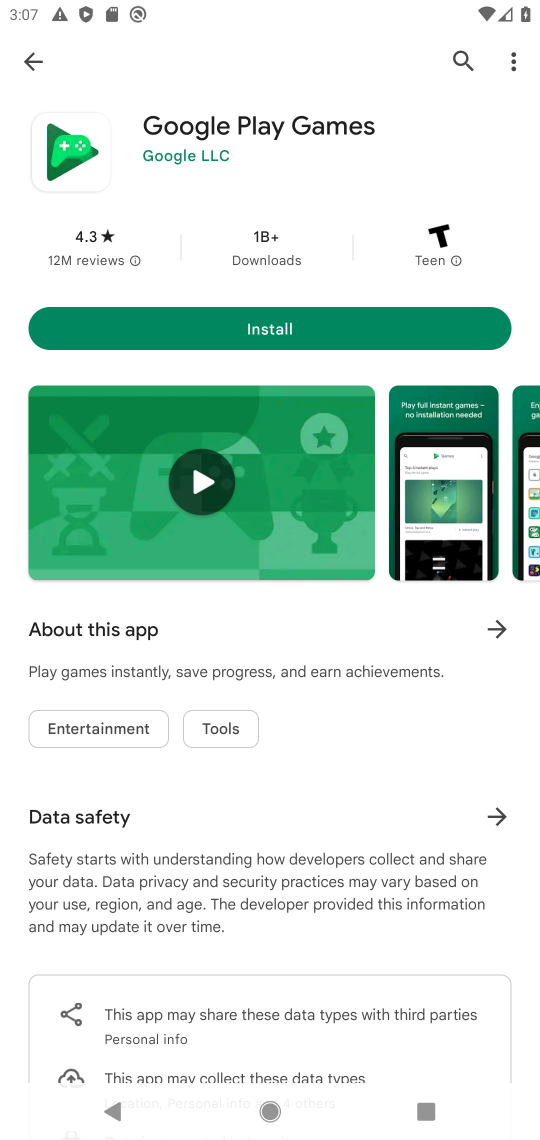
Step 55: click (266, 335)
Your task to perform on an android device: install app "Google Play Games" Image 56: 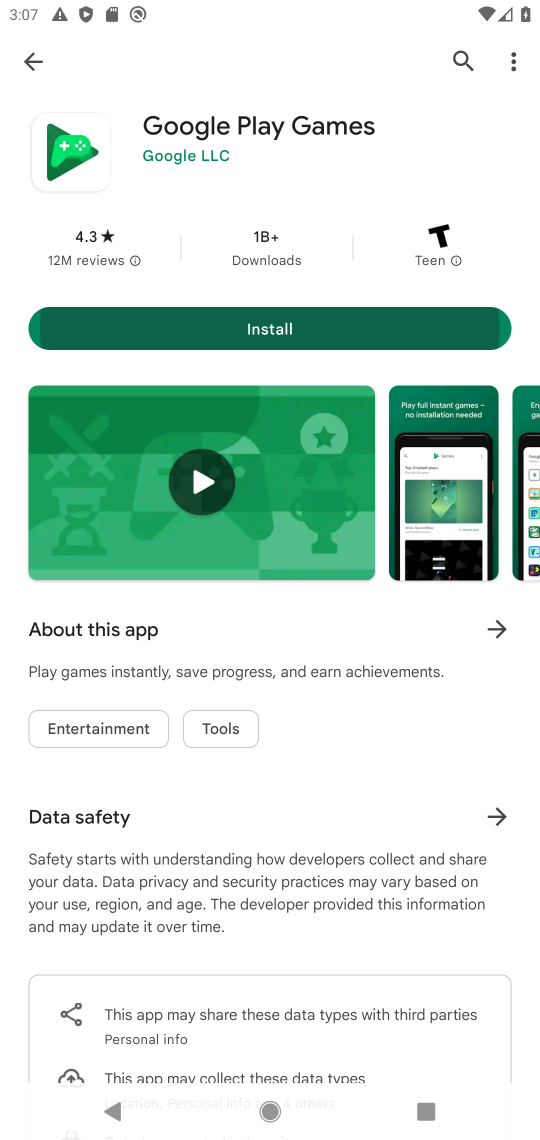
Step 56: click (266, 334)
Your task to perform on an android device: install app "Google Play Games" Image 57: 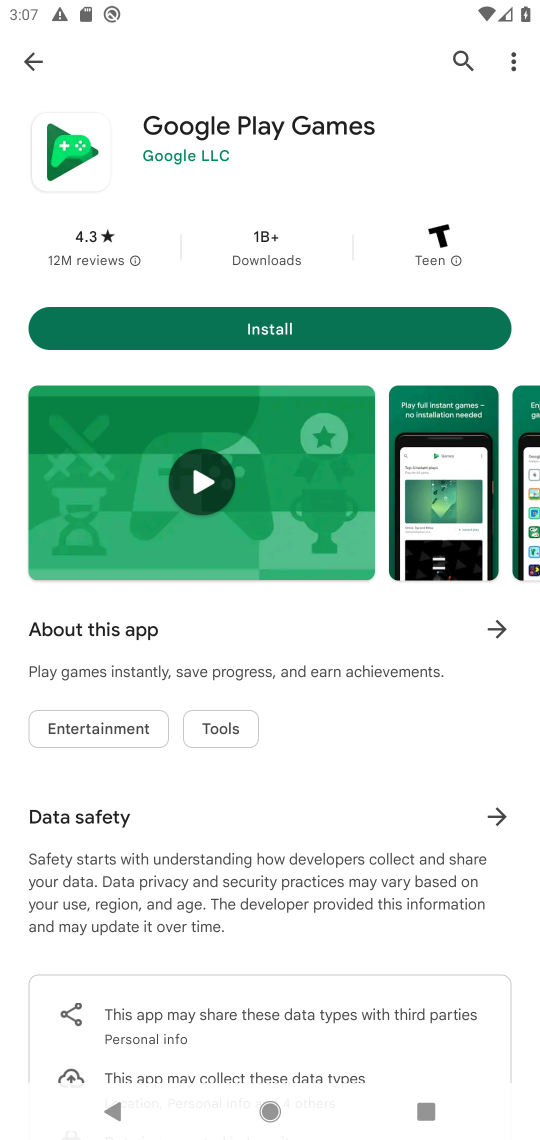
Step 57: click (270, 330)
Your task to perform on an android device: install app "Google Play Games" Image 58: 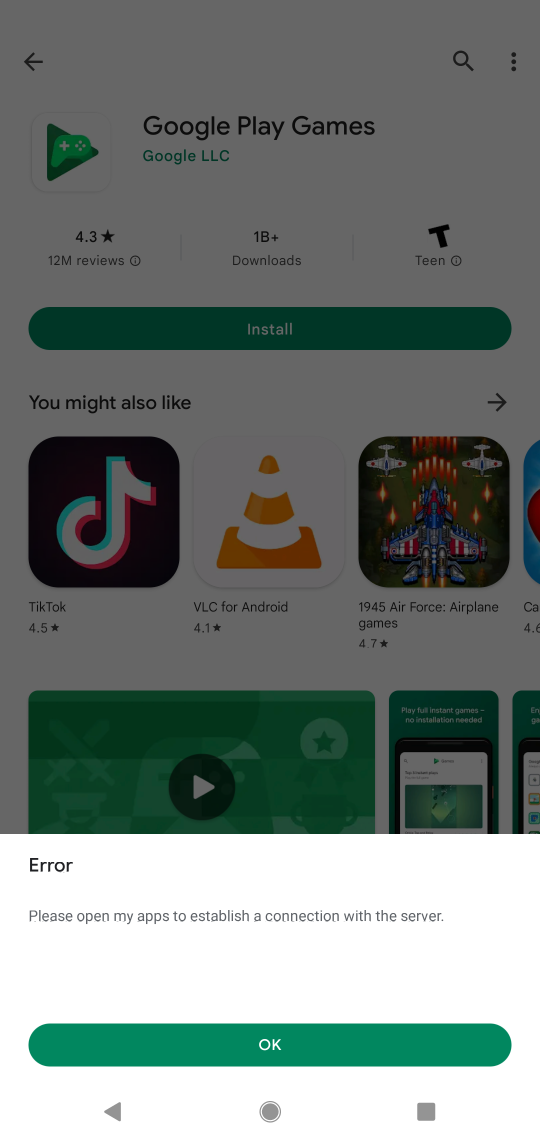
Step 58: task complete